Your task to perform on an android device: install app "eBay: The shopping marketplace" Image 0: 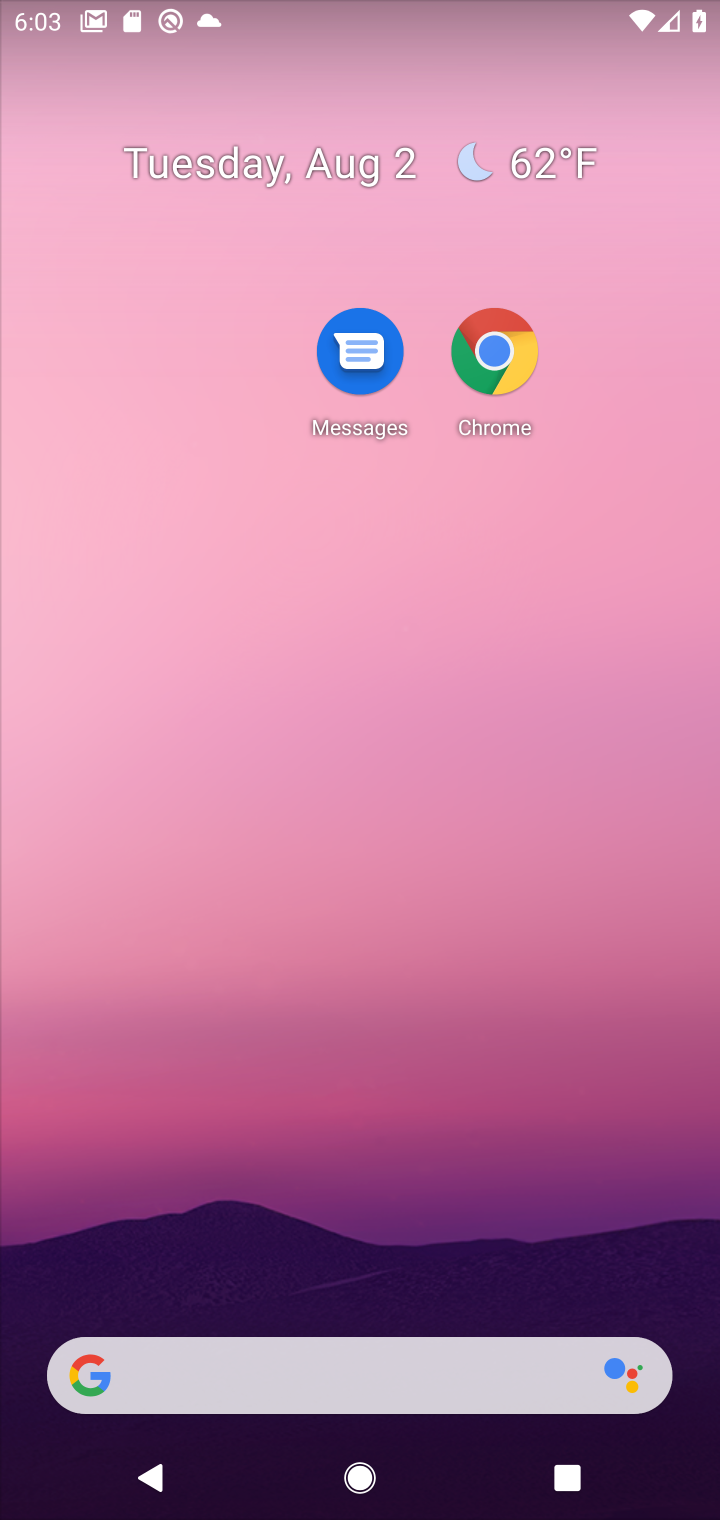
Step 0: drag from (305, 1216) to (504, 48)
Your task to perform on an android device: install app "eBay: The shopping marketplace" Image 1: 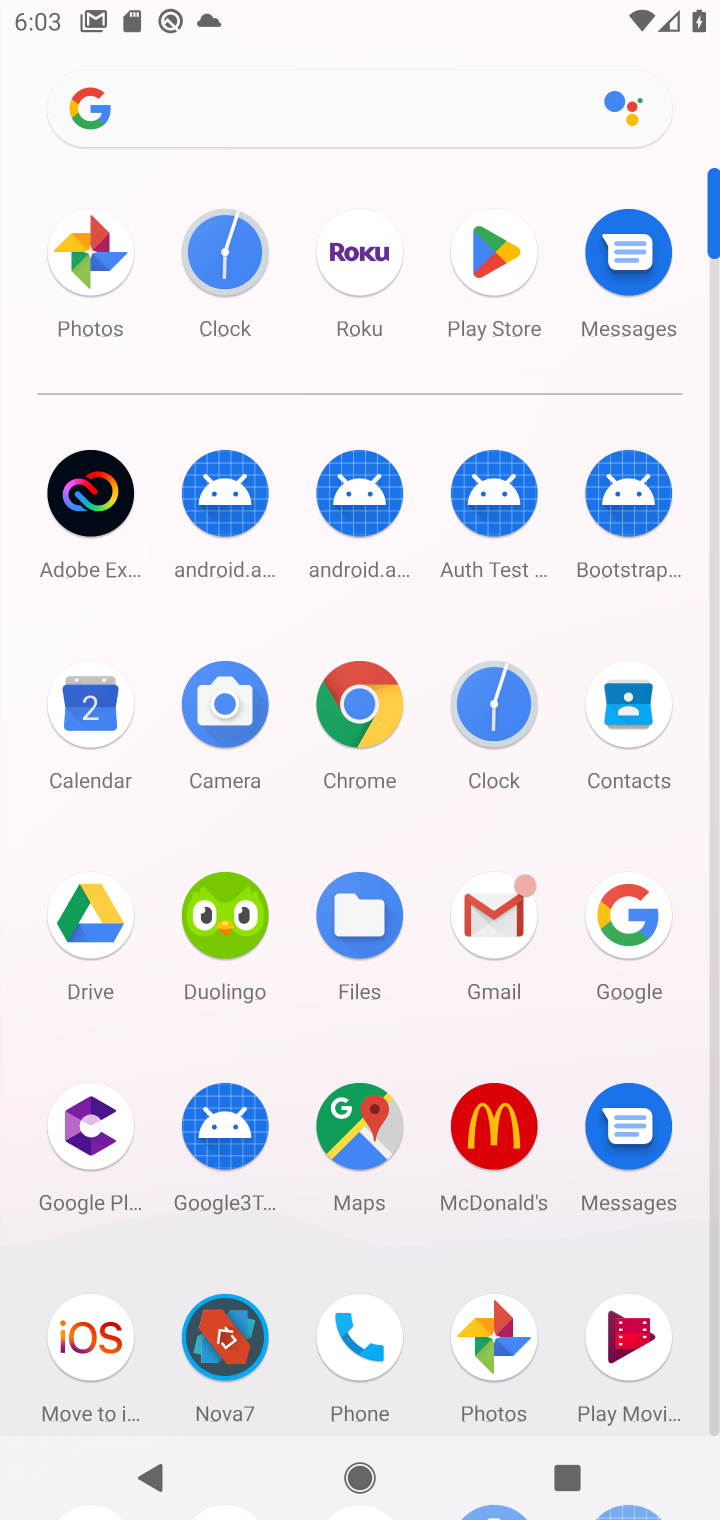
Step 1: click (497, 228)
Your task to perform on an android device: install app "eBay: The shopping marketplace" Image 2: 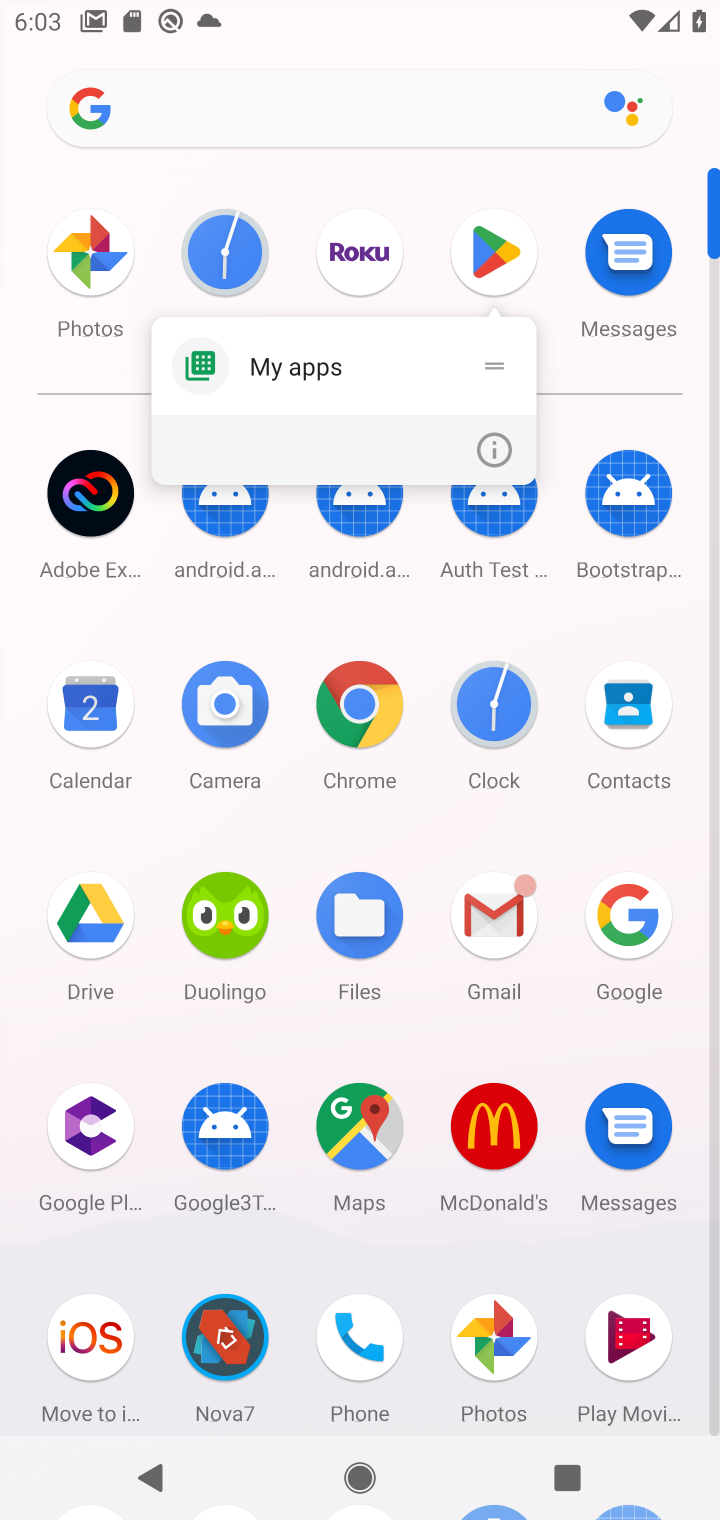
Step 2: click (494, 442)
Your task to perform on an android device: install app "eBay: The shopping marketplace" Image 3: 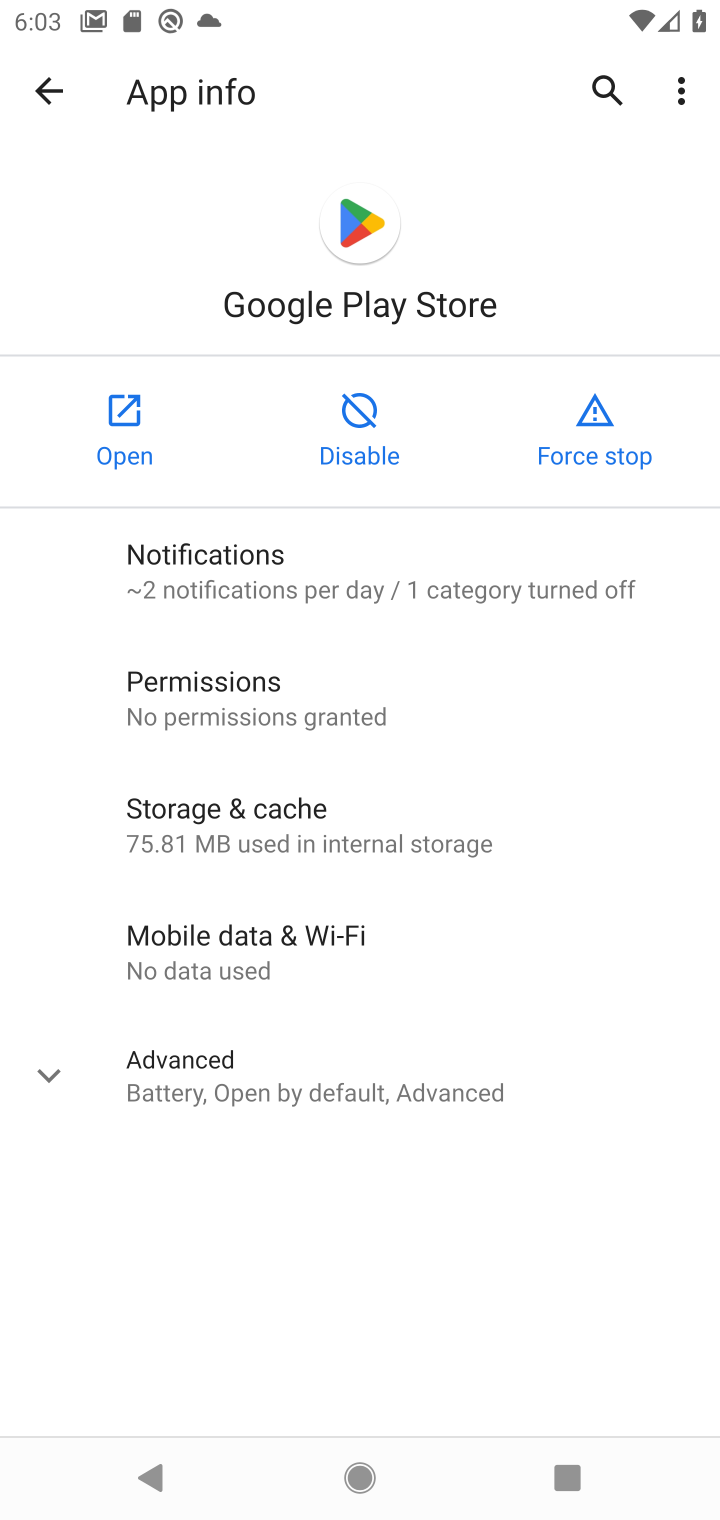
Step 3: click (122, 421)
Your task to perform on an android device: install app "eBay: The shopping marketplace" Image 4: 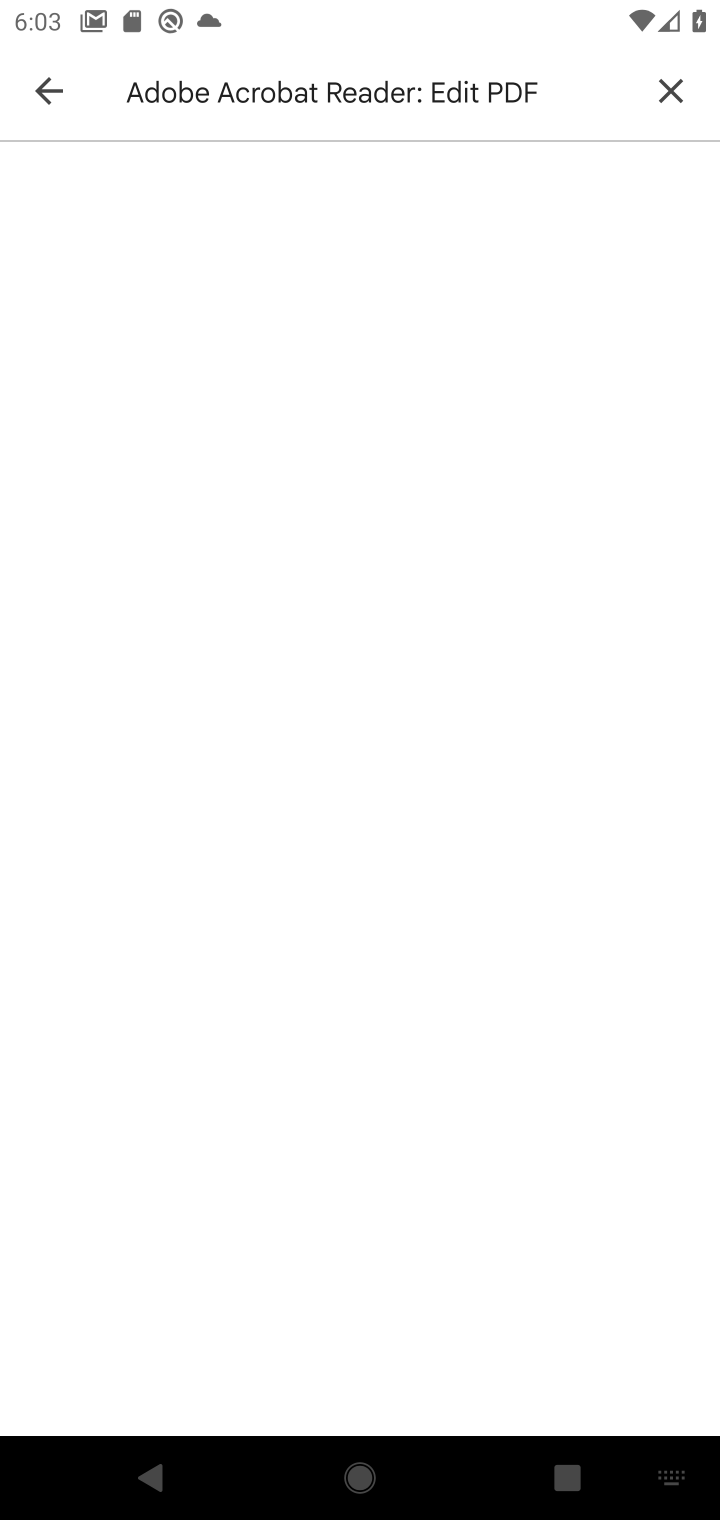
Step 4: click (691, 93)
Your task to perform on an android device: install app "eBay: The shopping marketplace" Image 5: 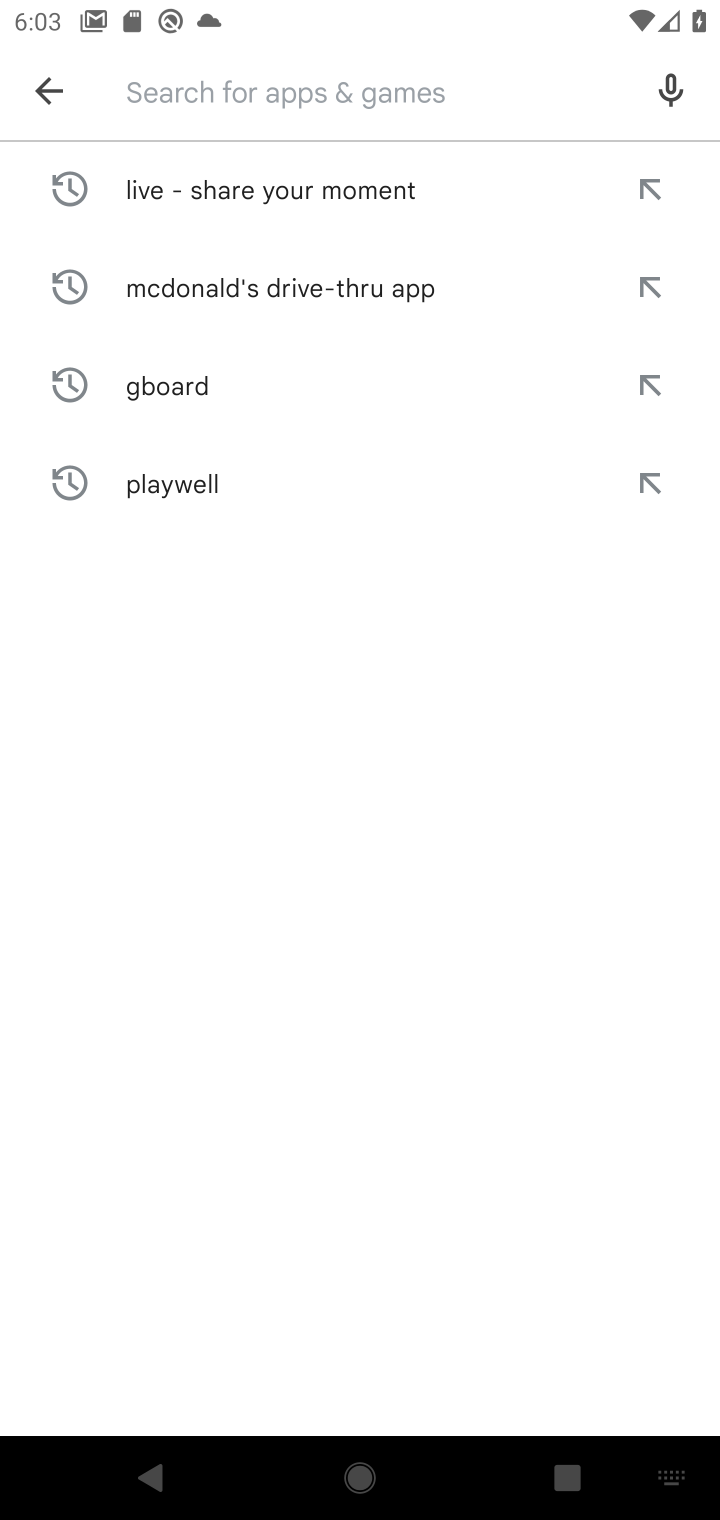
Step 5: click (45, 81)
Your task to perform on an android device: install app "eBay: The shopping marketplace" Image 6: 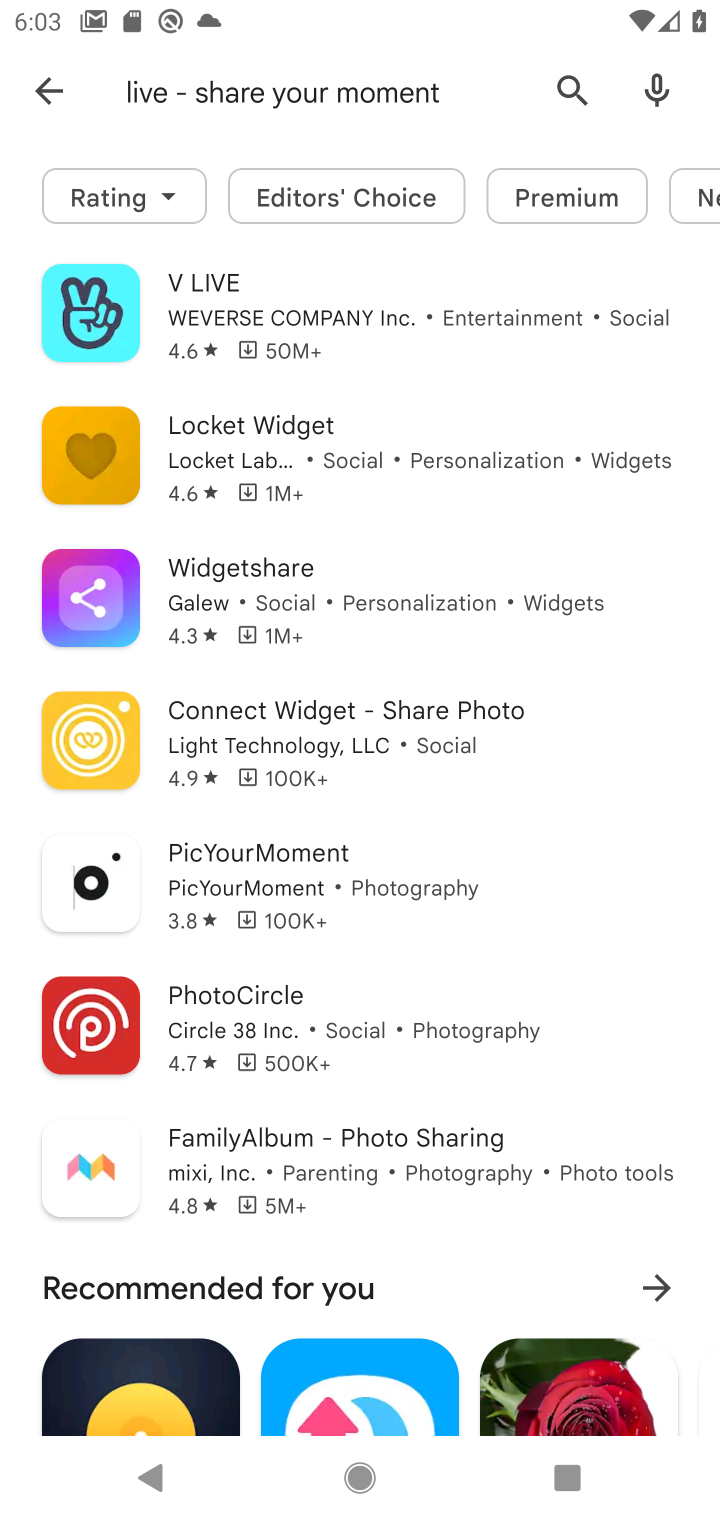
Step 6: drag from (301, 1021) to (543, 222)
Your task to perform on an android device: install app "eBay: The shopping marketplace" Image 7: 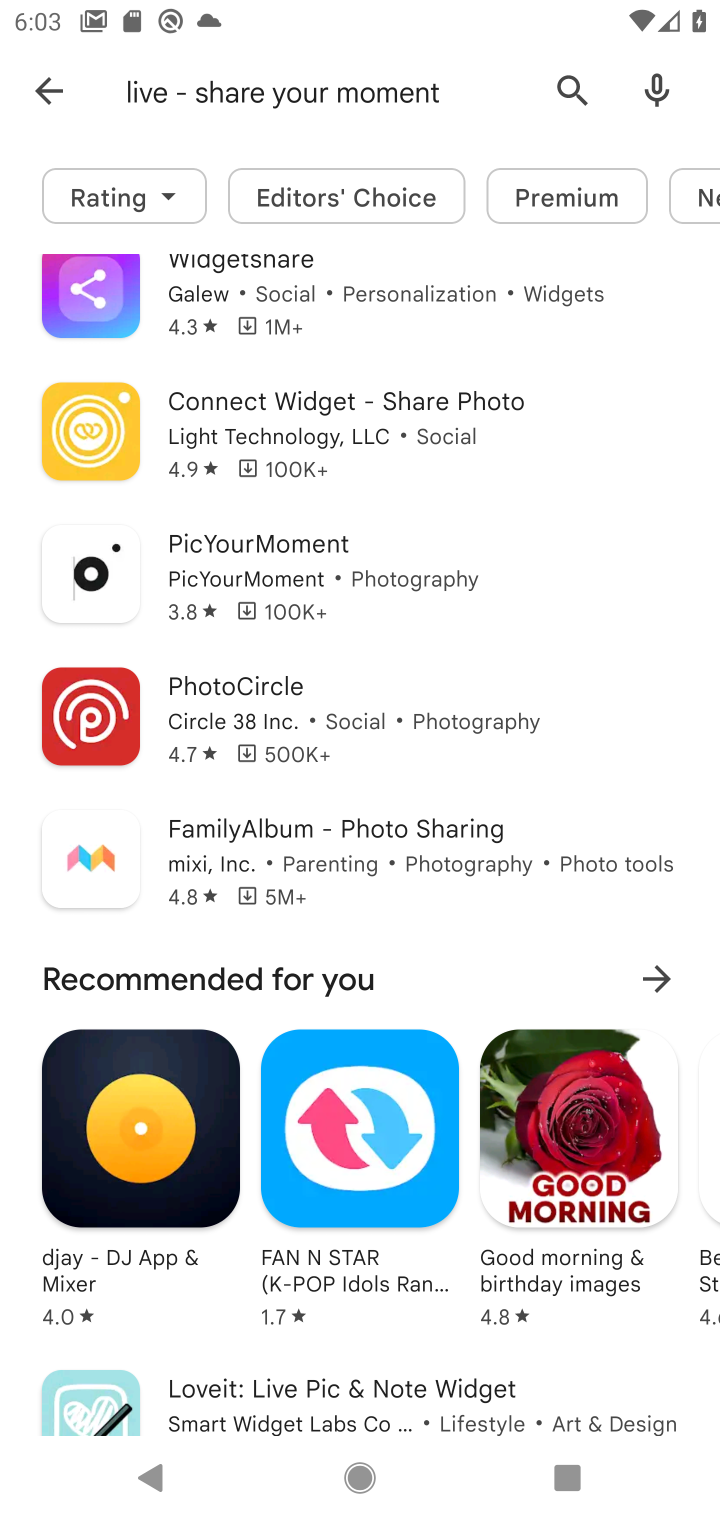
Step 7: drag from (248, 965) to (569, 1503)
Your task to perform on an android device: install app "eBay: The shopping marketplace" Image 8: 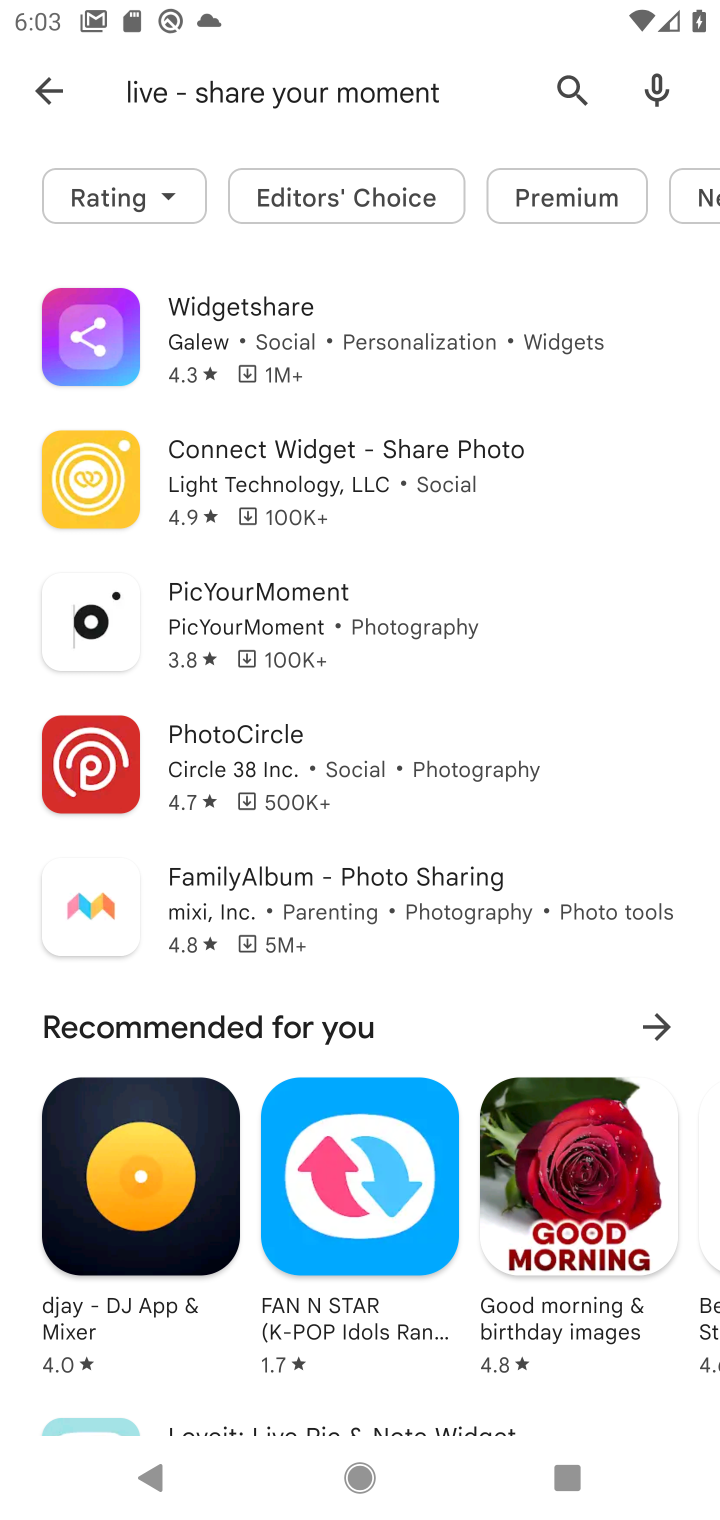
Step 8: click (574, 95)
Your task to perform on an android device: install app "eBay: The shopping marketplace" Image 9: 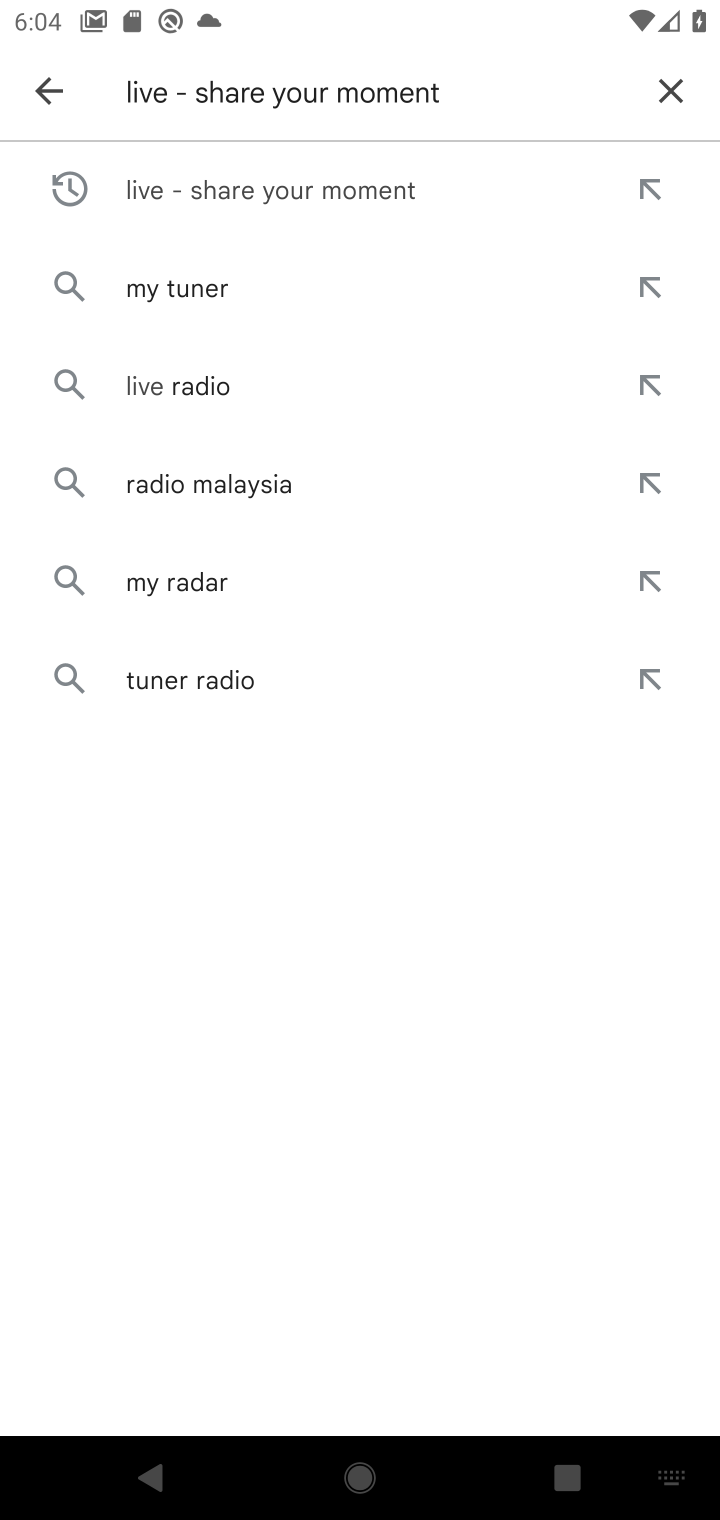
Step 9: click (660, 94)
Your task to perform on an android device: install app "eBay: The shopping marketplace" Image 10: 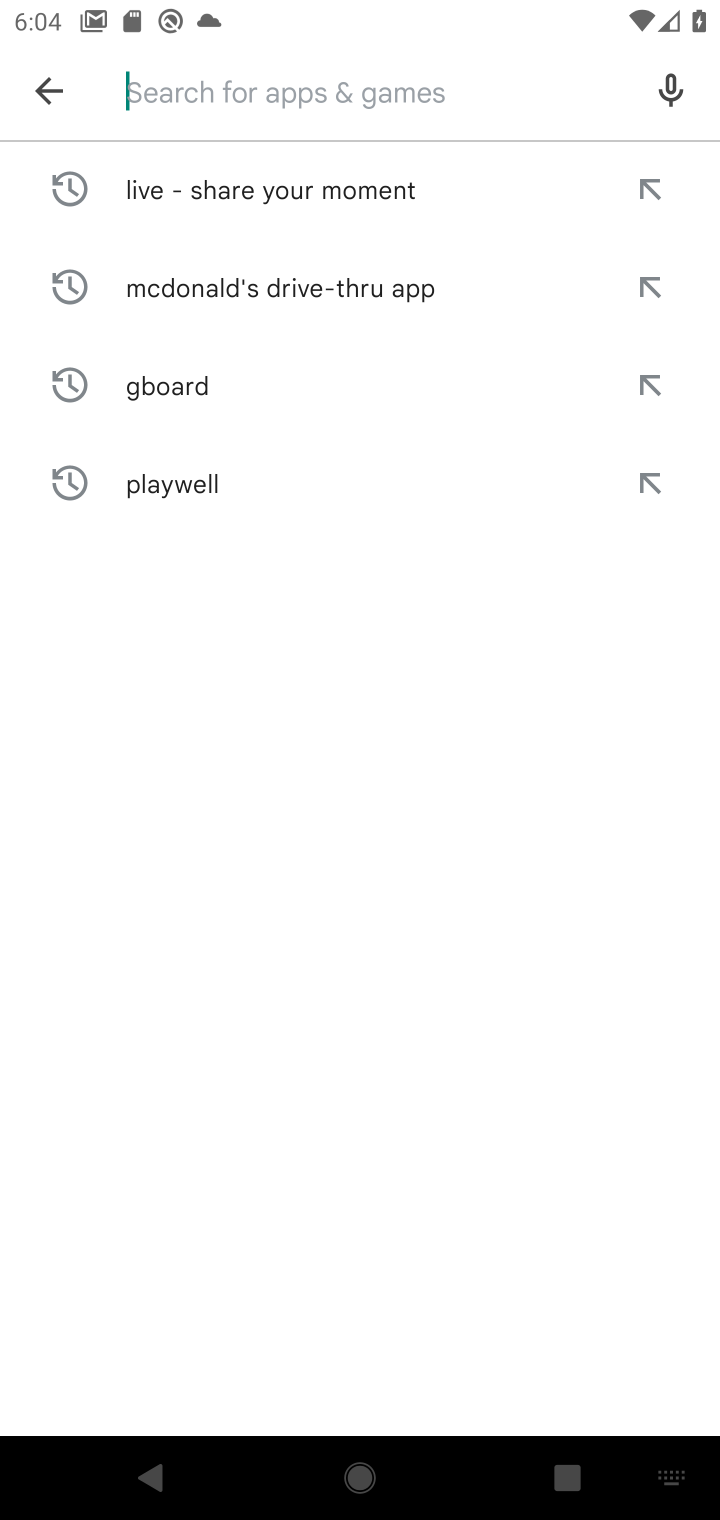
Step 10: type "eBay: The shopping marketplace"
Your task to perform on an android device: install app "eBay: The shopping marketplace" Image 11: 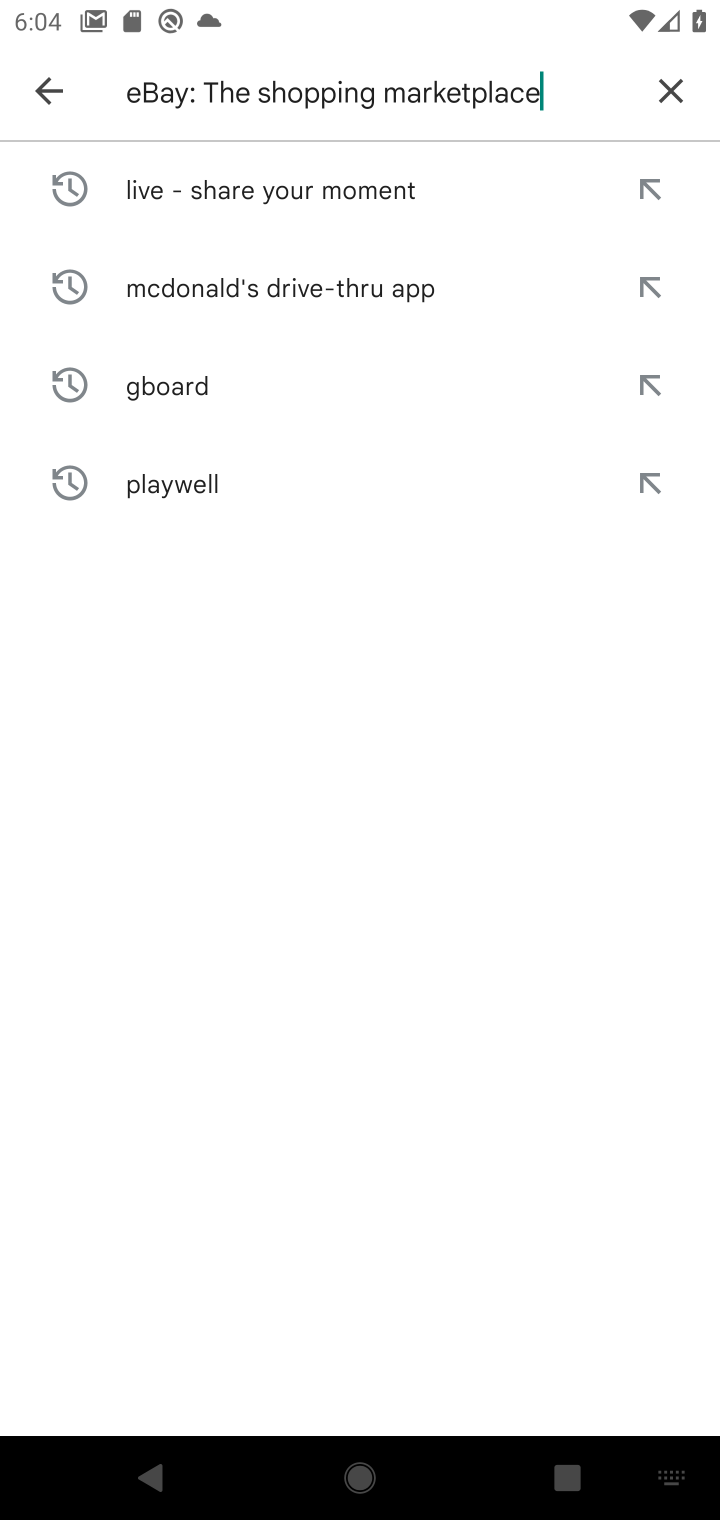
Step 11: type ""
Your task to perform on an android device: install app "eBay: The shopping marketplace" Image 12: 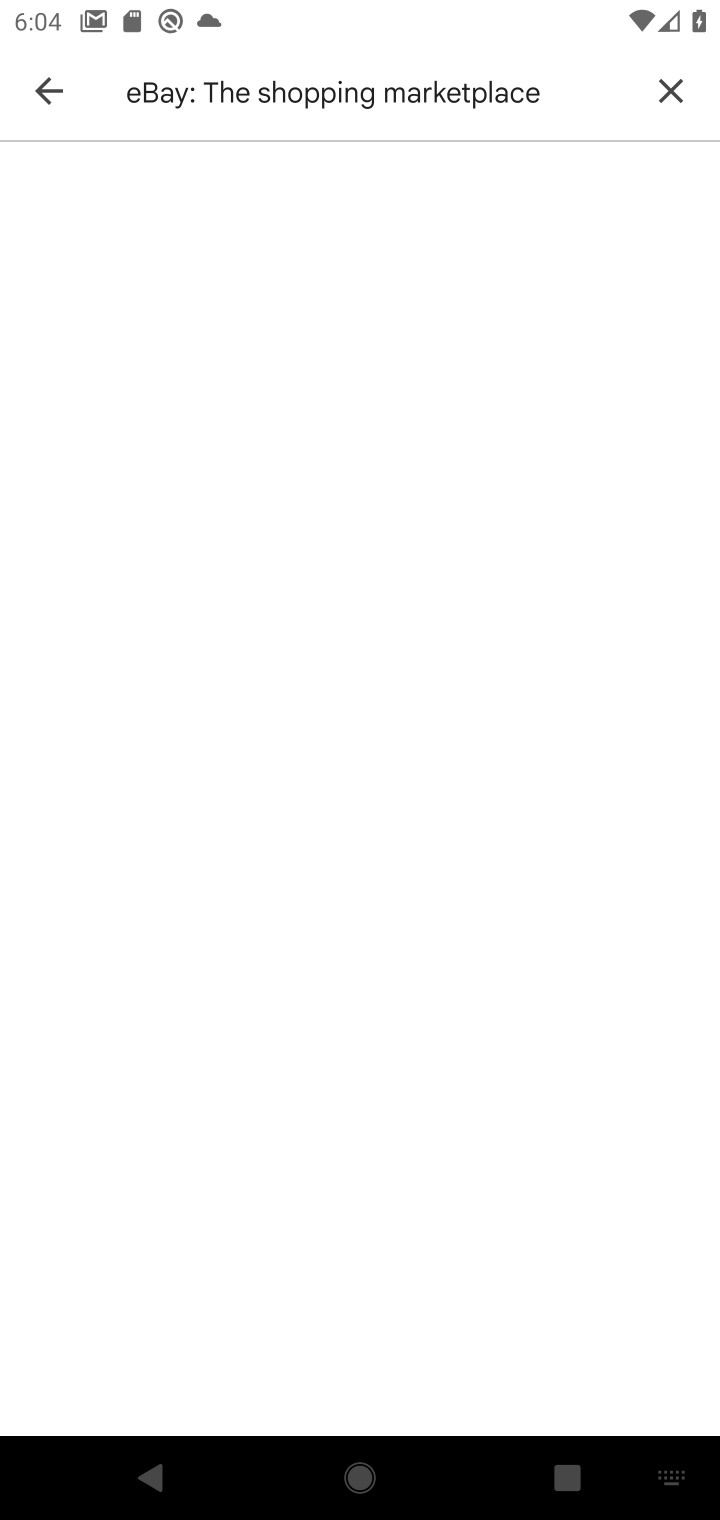
Step 12: drag from (271, 208) to (297, 807)
Your task to perform on an android device: install app "eBay: The shopping marketplace" Image 13: 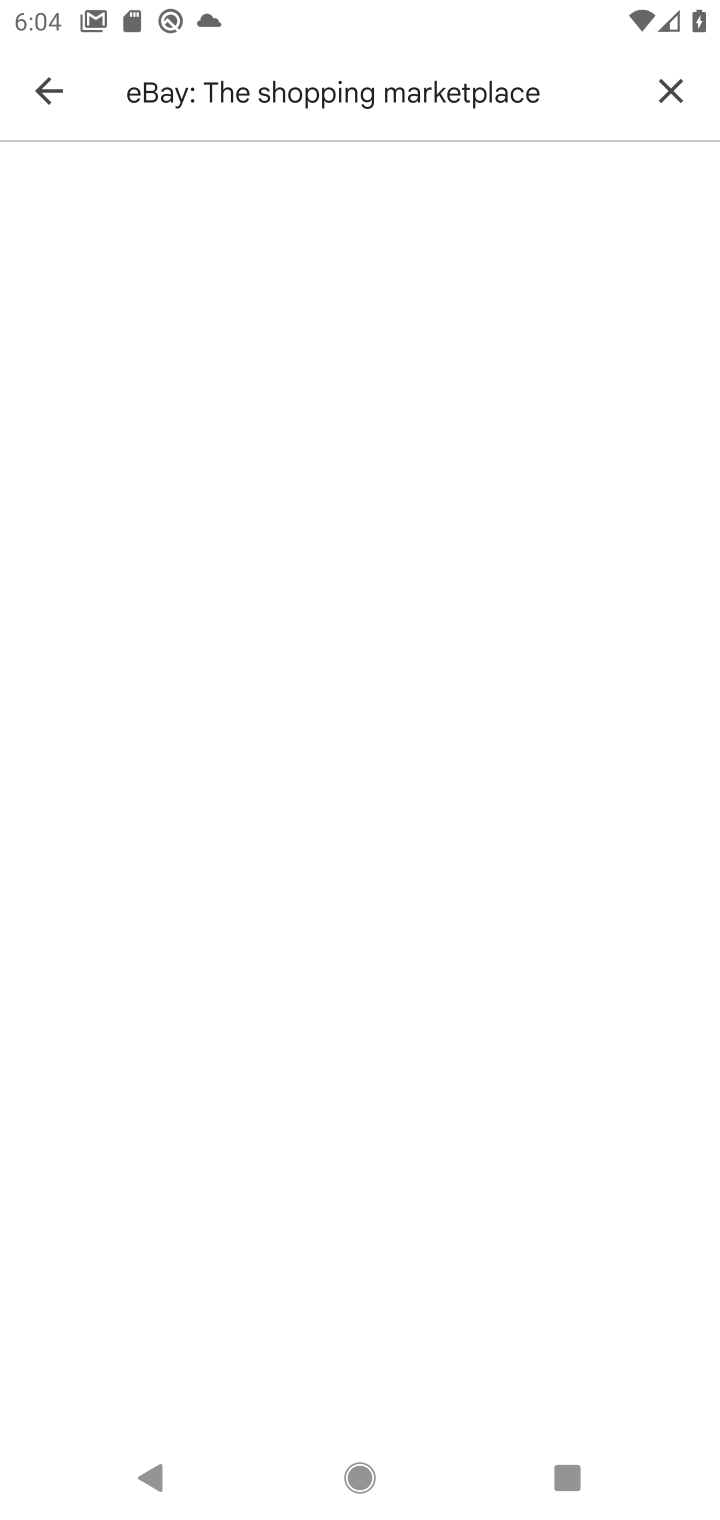
Step 13: click (363, 189)
Your task to perform on an android device: install app "eBay: The shopping marketplace" Image 14: 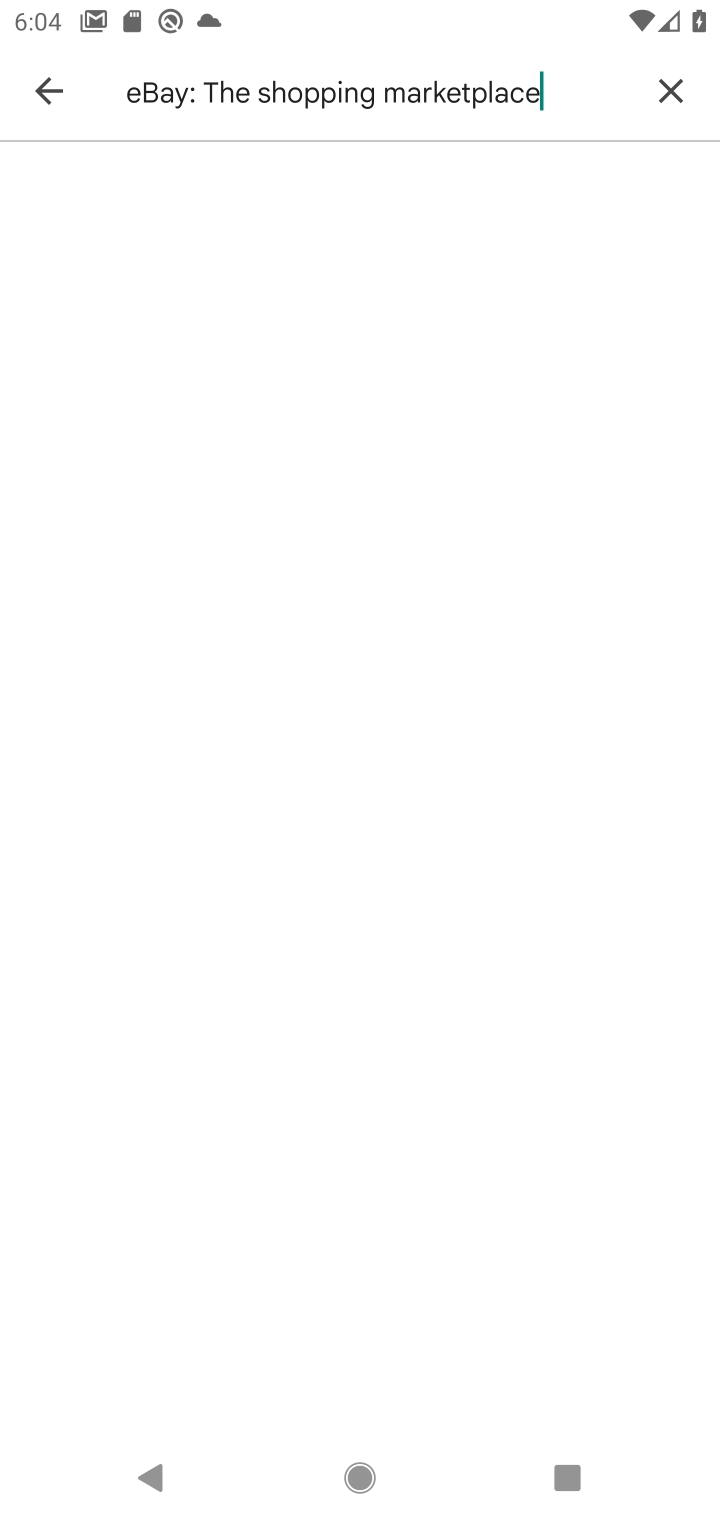
Step 14: click (272, 184)
Your task to perform on an android device: install app "eBay: The shopping marketplace" Image 15: 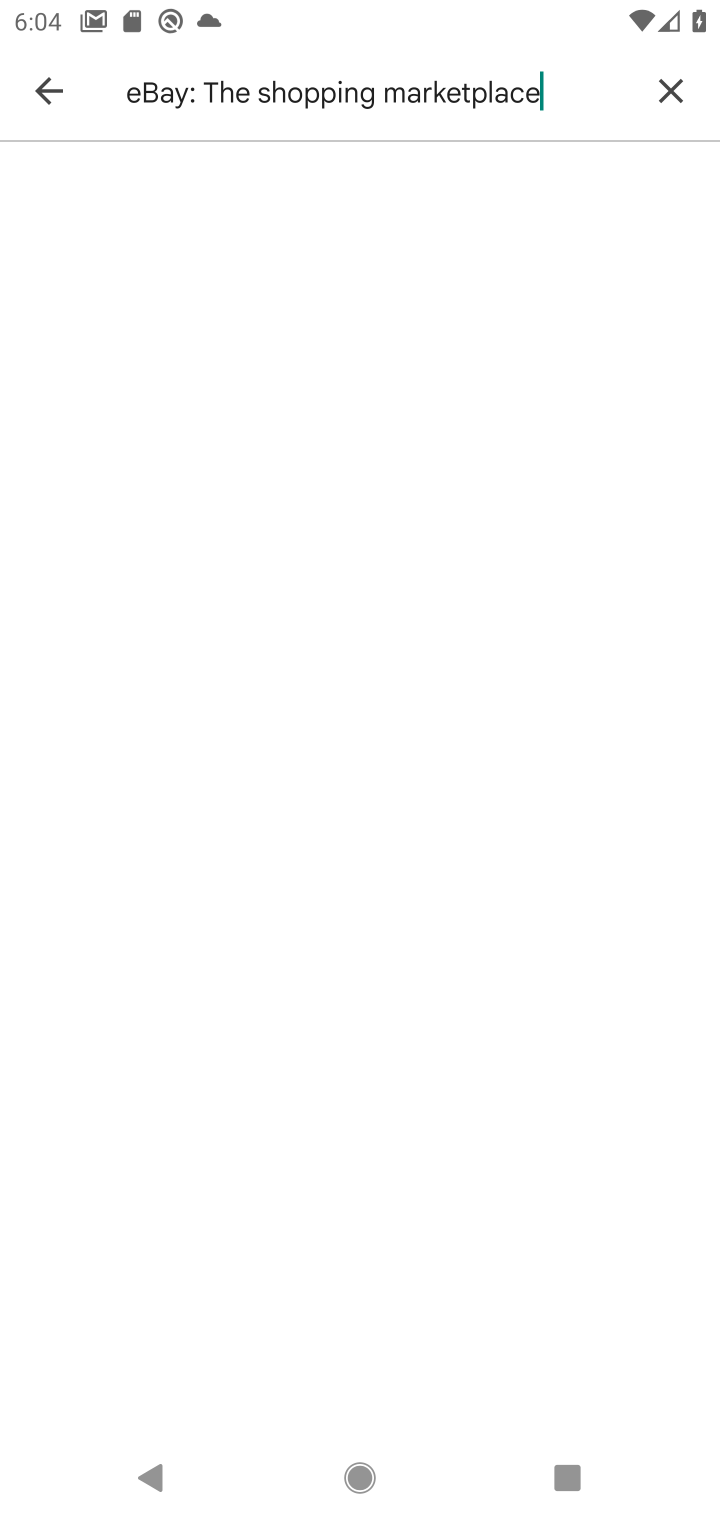
Step 15: press home button
Your task to perform on an android device: install app "eBay: The shopping marketplace" Image 16: 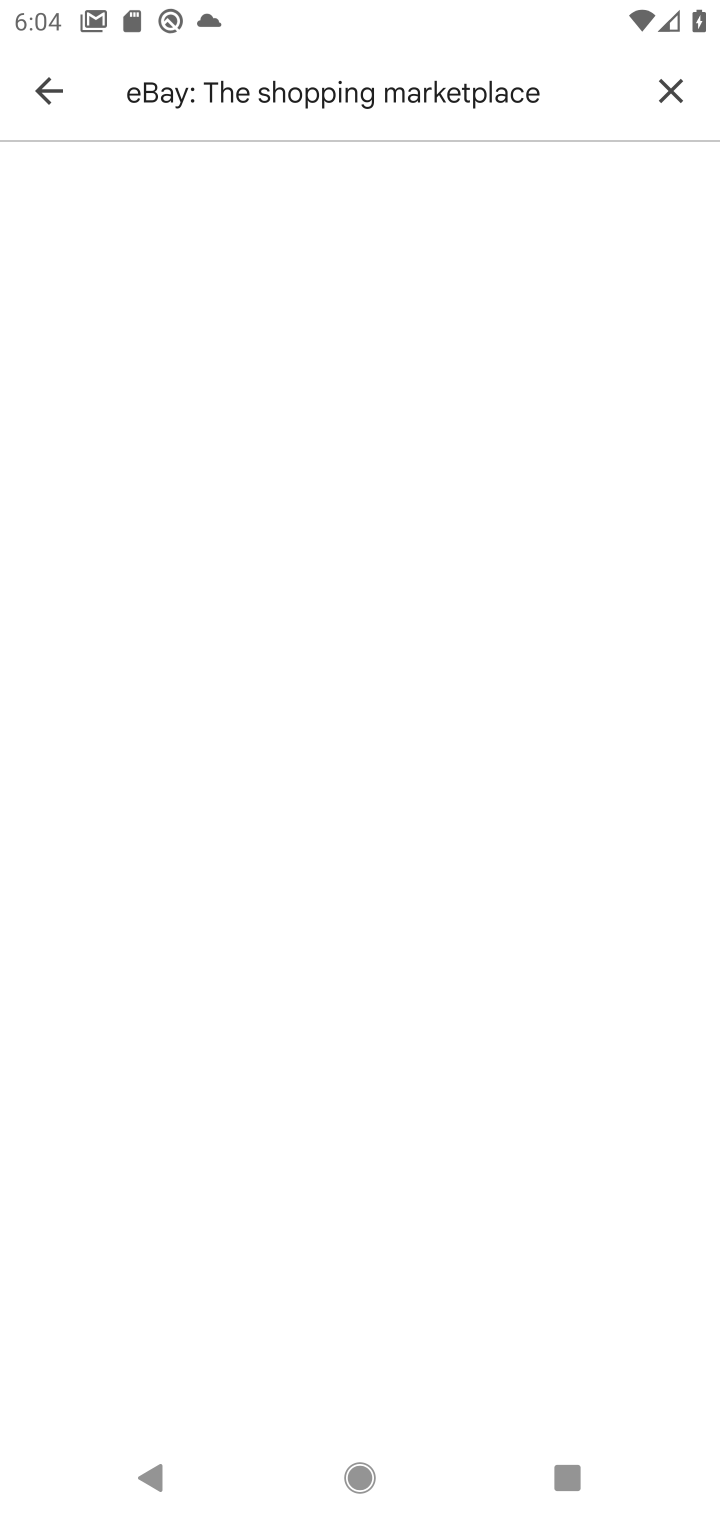
Step 16: press home button
Your task to perform on an android device: install app "eBay: The shopping marketplace" Image 17: 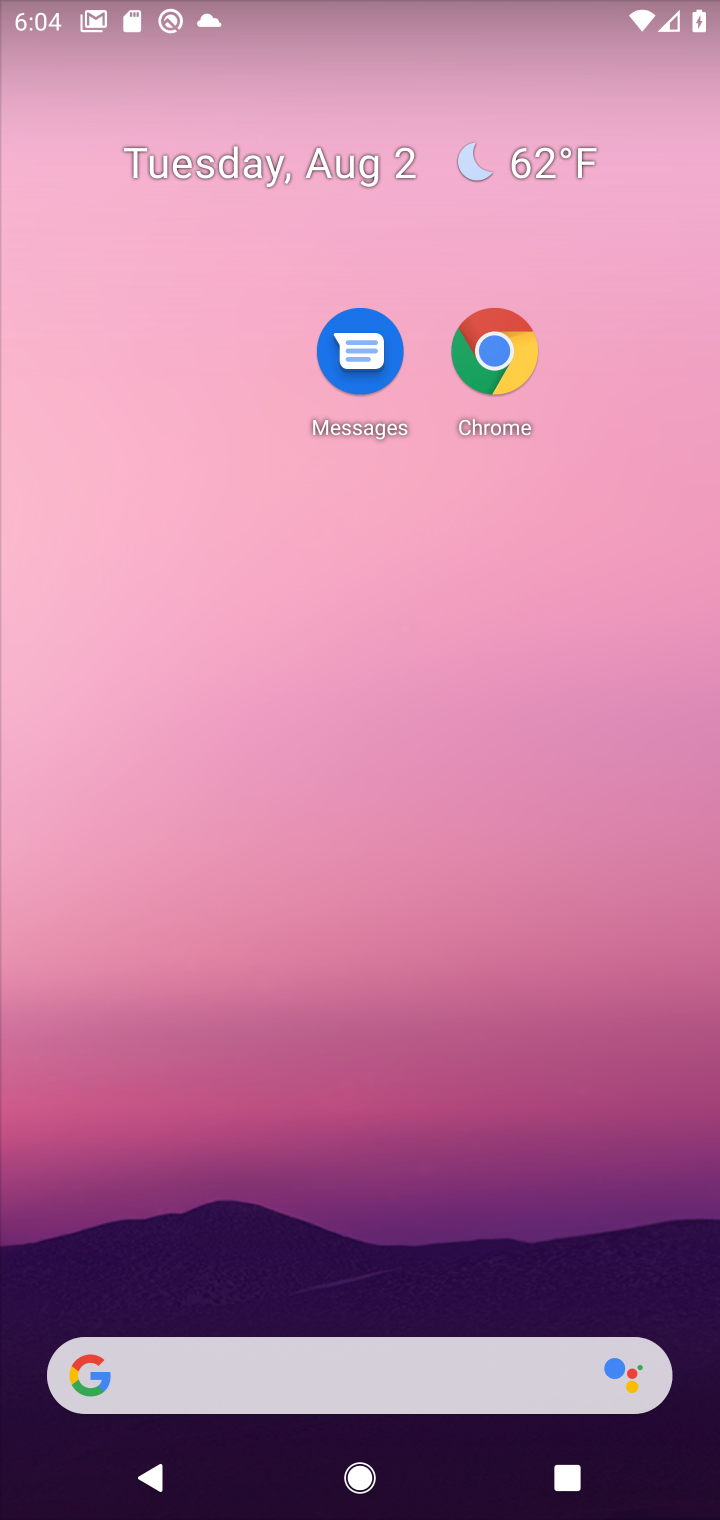
Step 17: press home button
Your task to perform on an android device: install app "eBay: The shopping marketplace" Image 18: 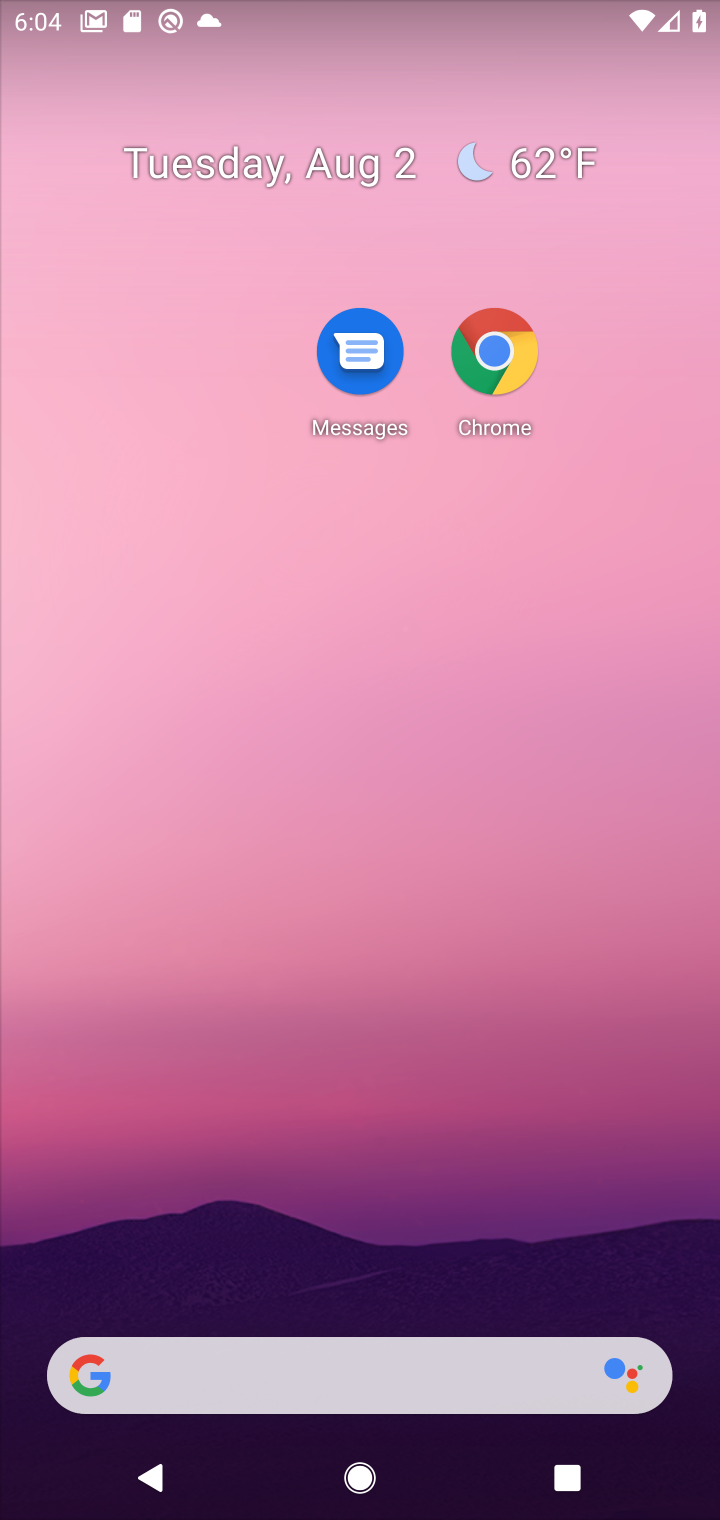
Step 18: press home button
Your task to perform on an android device: install app "eBay: The shopping marketplace" Image 19: 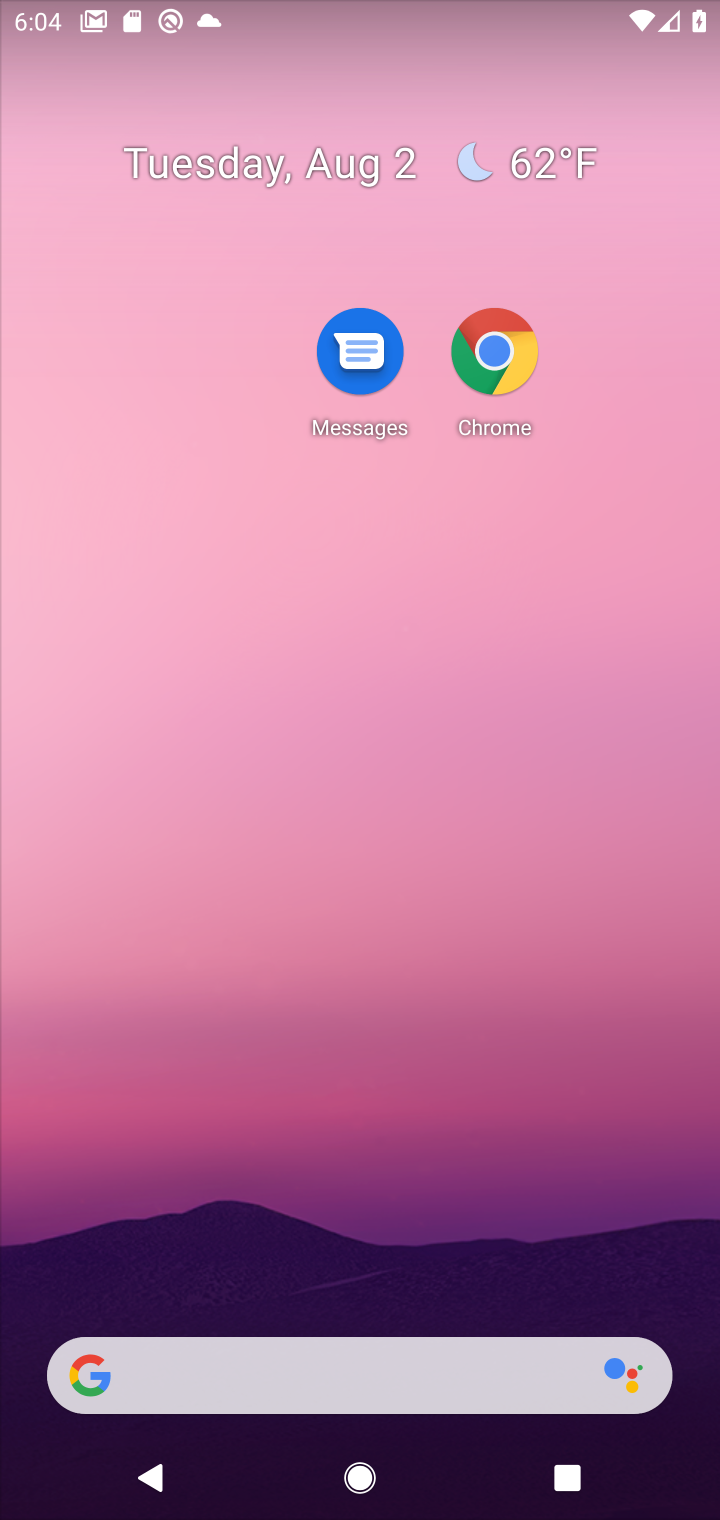
Step 19: drag from (397, 1135) to (497, 265)
Your task to perform on an android device: install app "eBay: The shopping marketplace" Image 20: 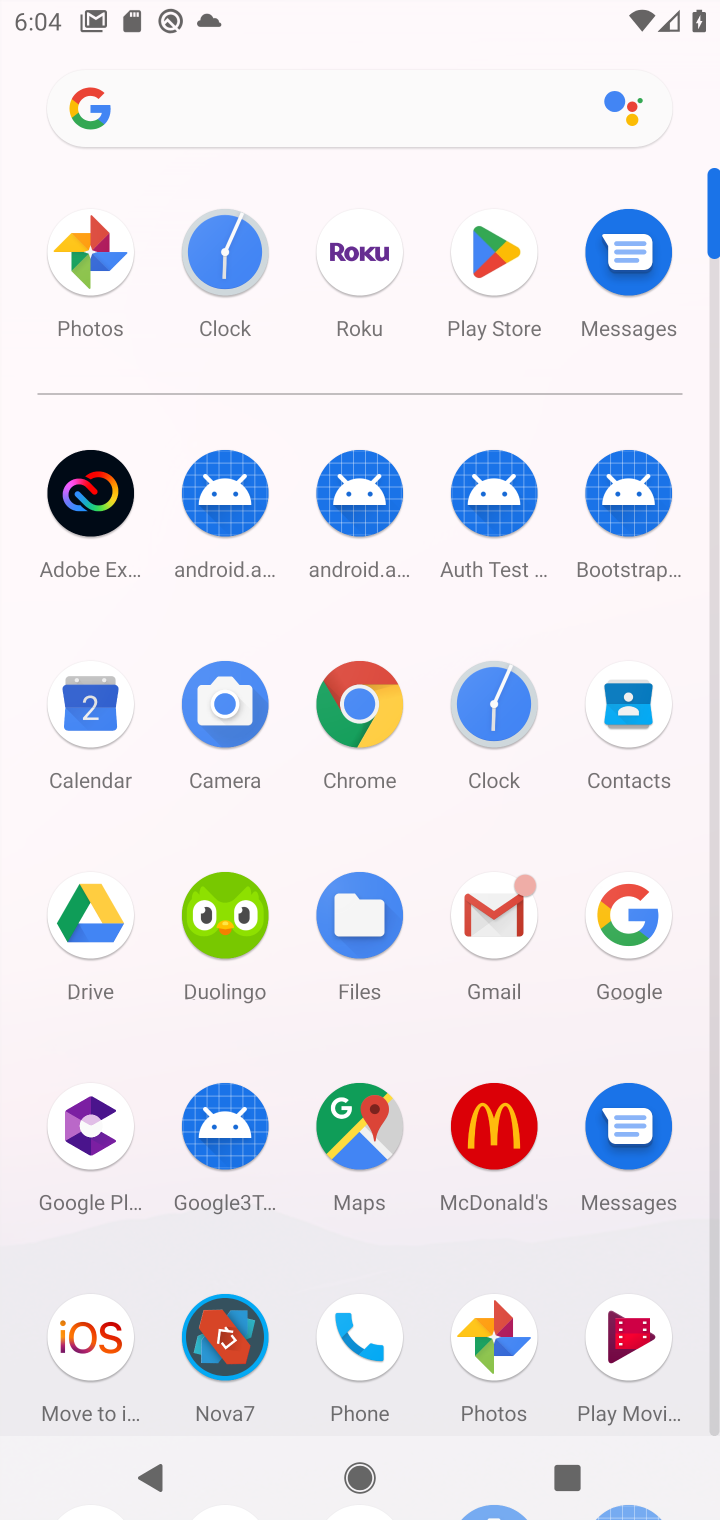
Step 20: click (523, 247)
Your task to perform on an android device: install app "eBay: The shopping marketplace" Image 21: 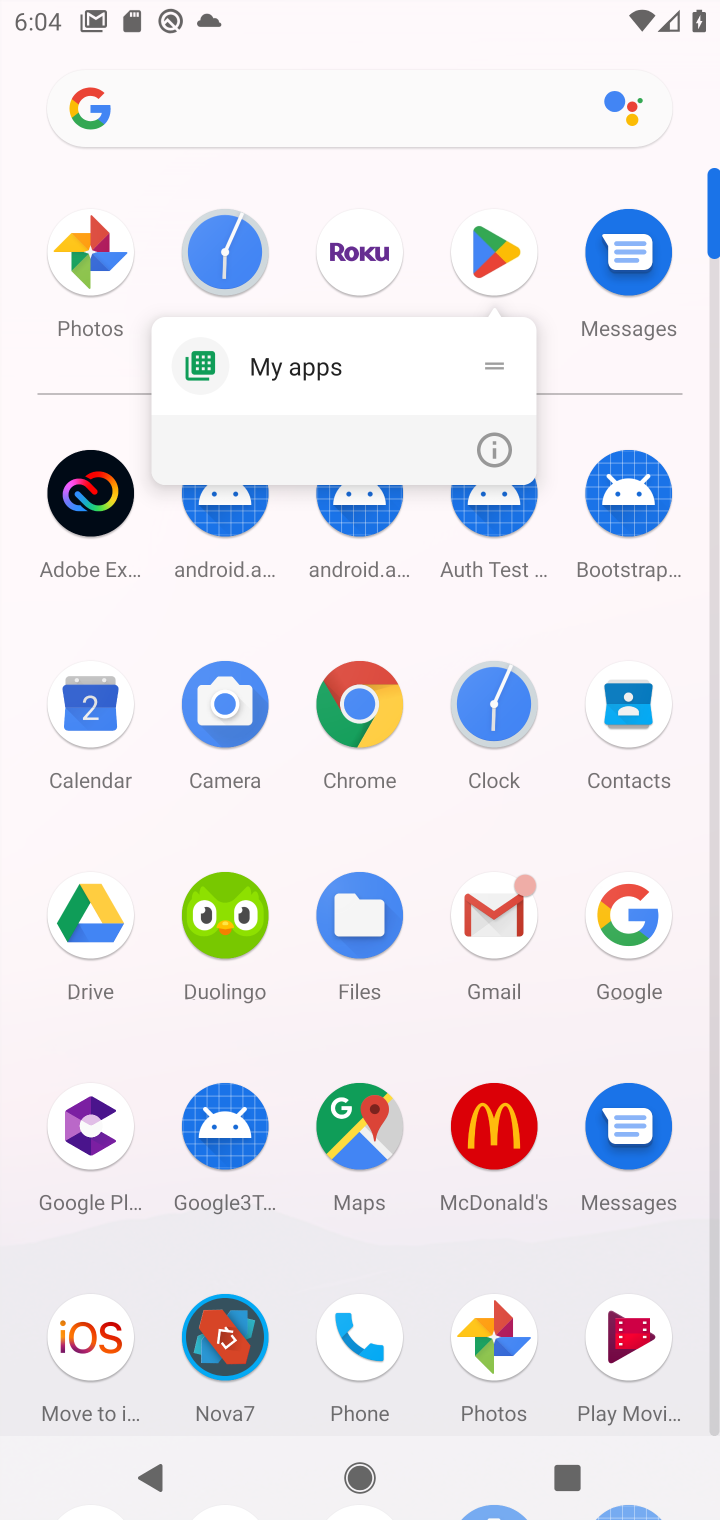
Step 21: click (501, 436)
Your task to perform on an android device: install app "eBay: The shopping marketplace" Image 22: 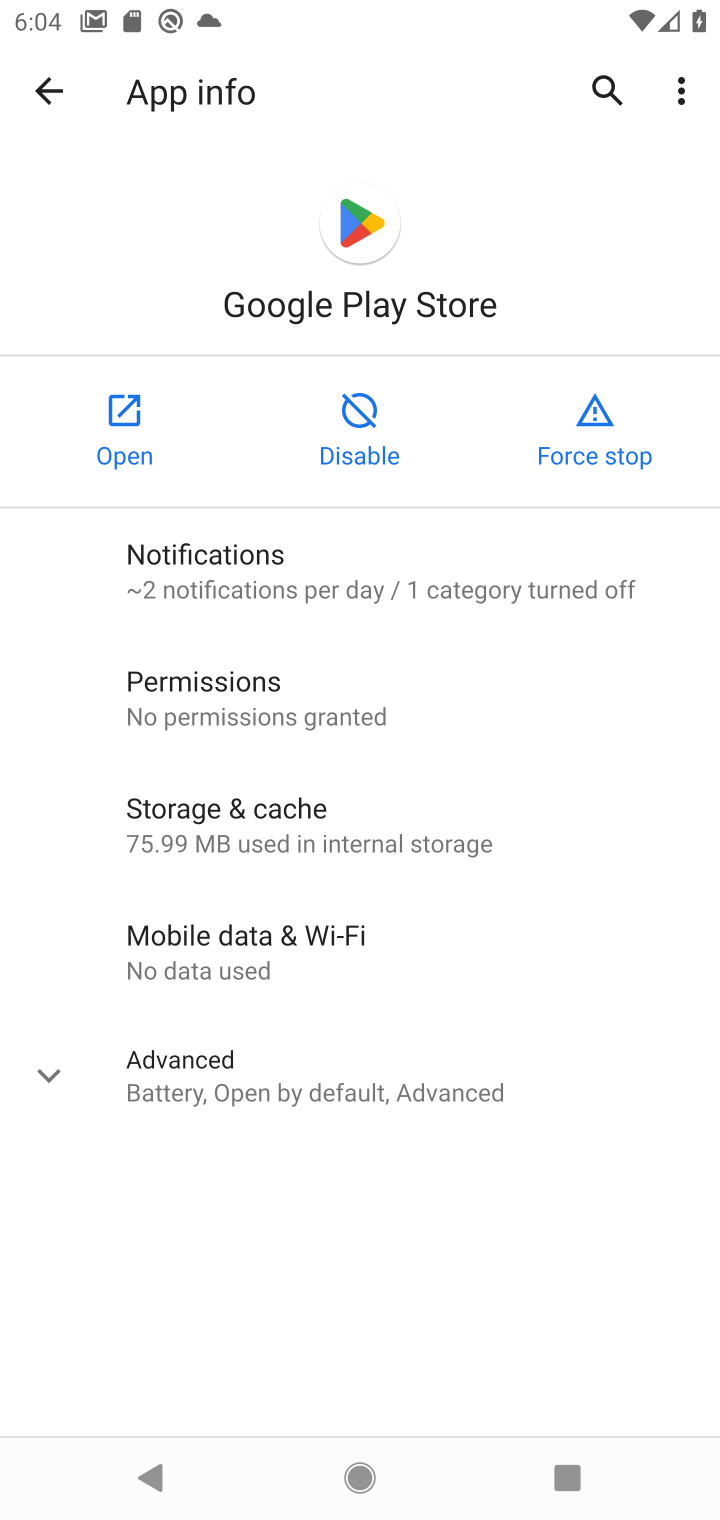
Step 22: click (134, 413)
Your task to perform on an android device: install app "eBay: The shopping marketplace" Image 23: 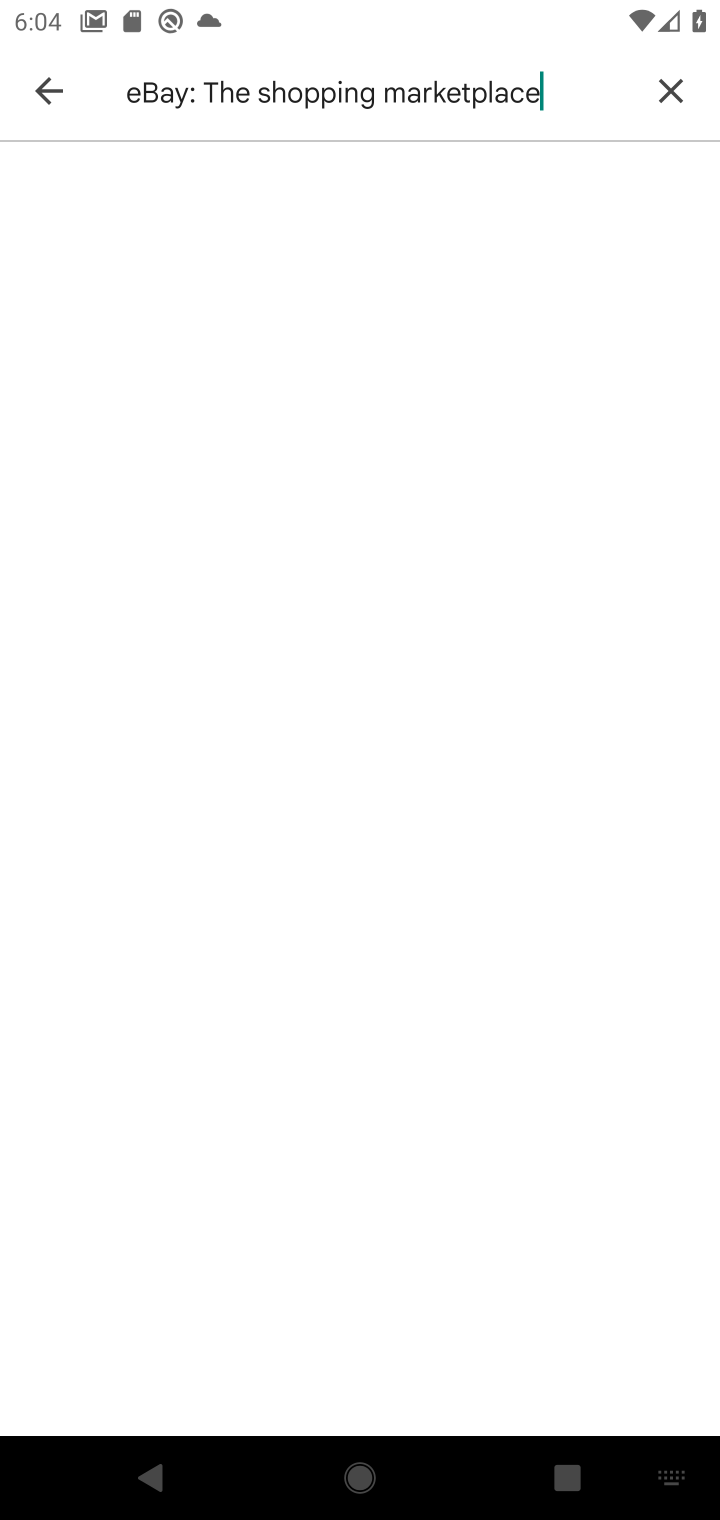
Step 23: click (686, 94)
Your task to perform on an android device: install app "eBay: The shopping marketplace" Image 24: 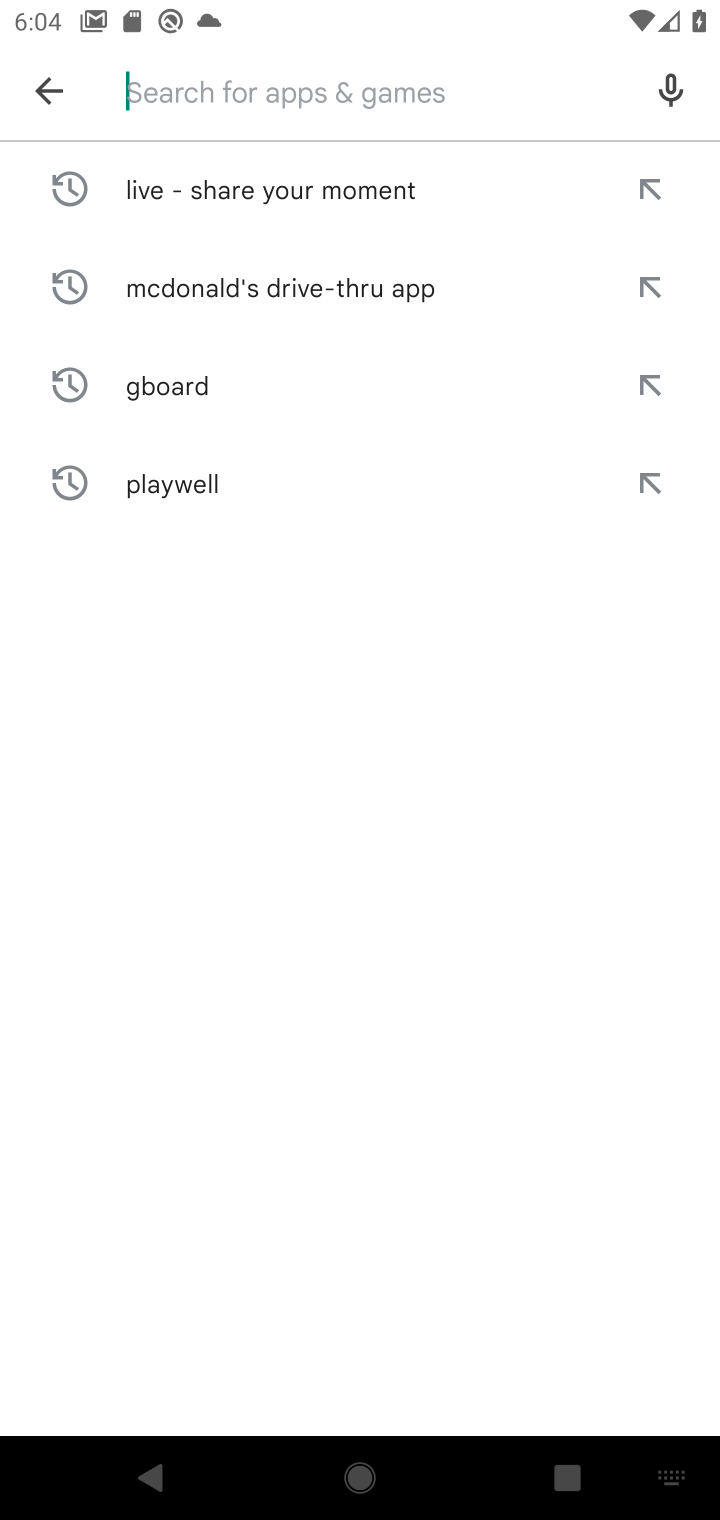
Step 24: type "eBay: The shopping marketplace"
Your task to perform on an android device: install app "eBay: The shopping marketplace" Image 25: 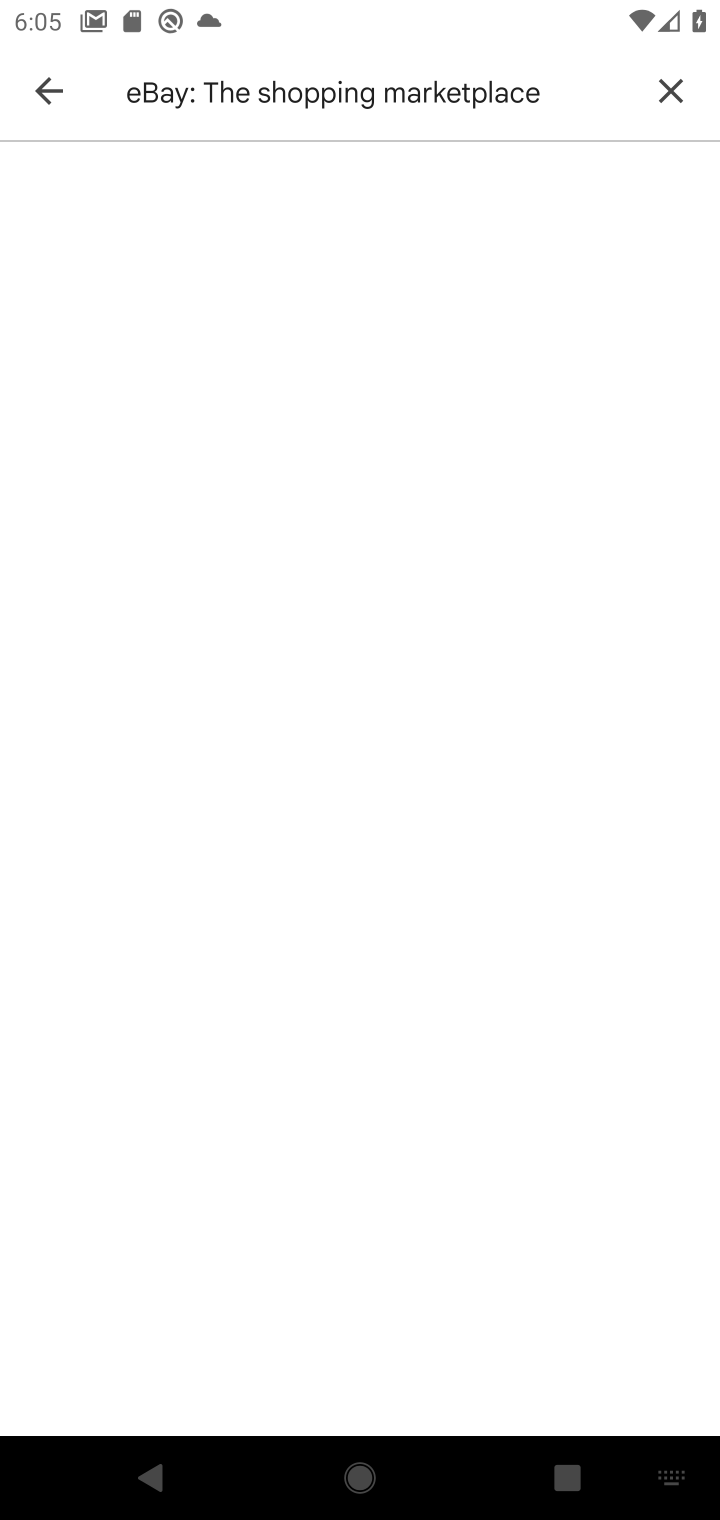
Step 25: click (352, 198)
Your task to perform on an android device: install app "eBay: The shopping marketplace" Image 26: 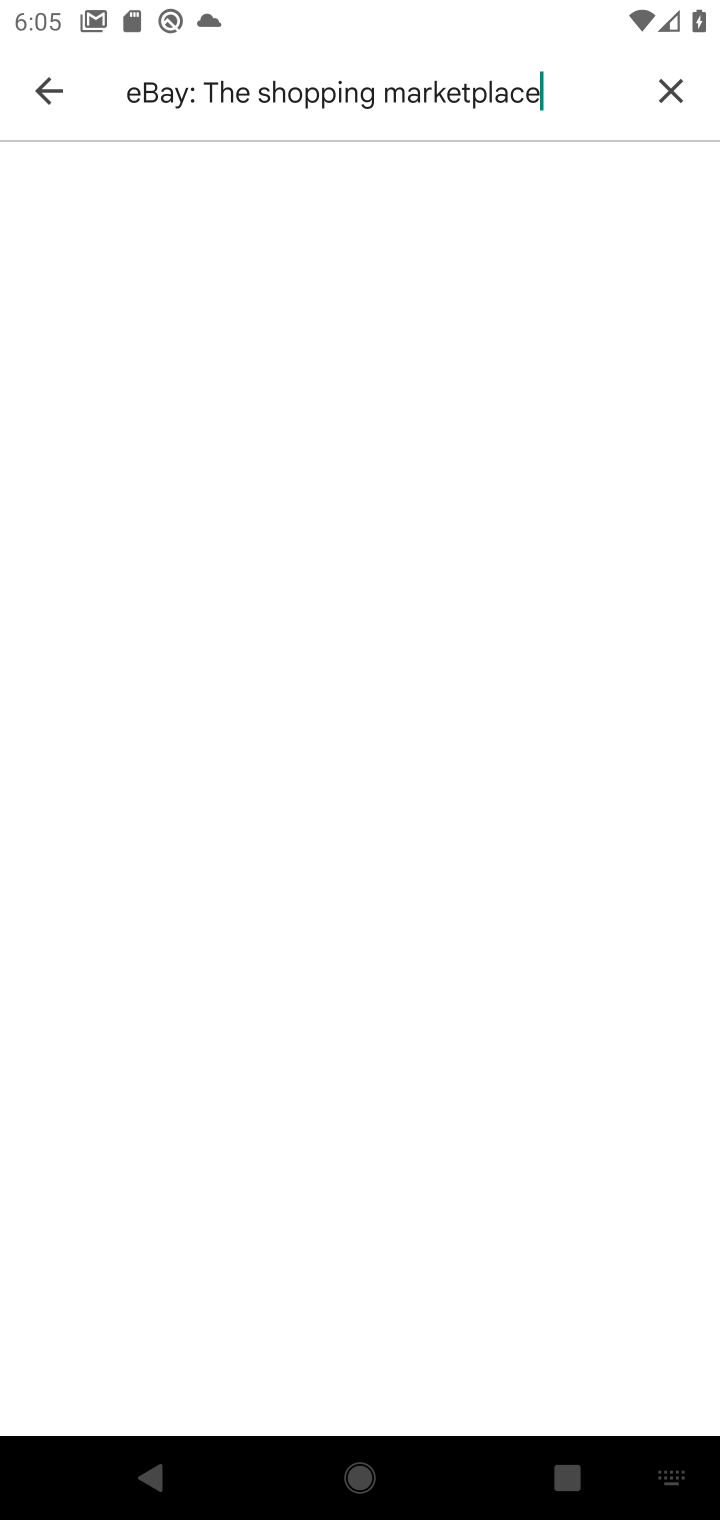
Step 26: drag from (246, 1028) to (359, 522)
Your task to perform on an android device: install app "eBay: The shopping marketplace" Image 27: 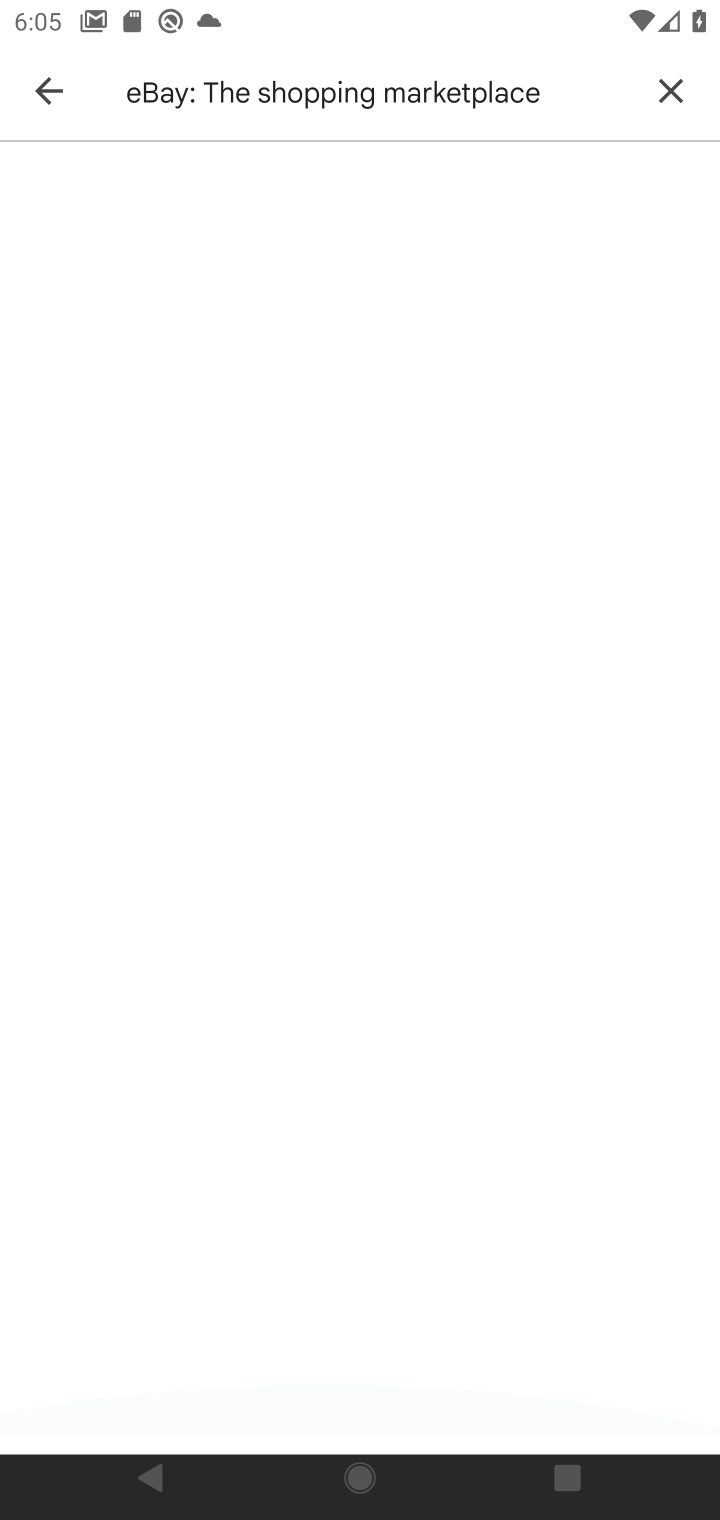
Step 27: drag from (407, 294) to (617, 960)
Your task to perform on an android device: install app "eBay: The shopping marketplace" Image 28: 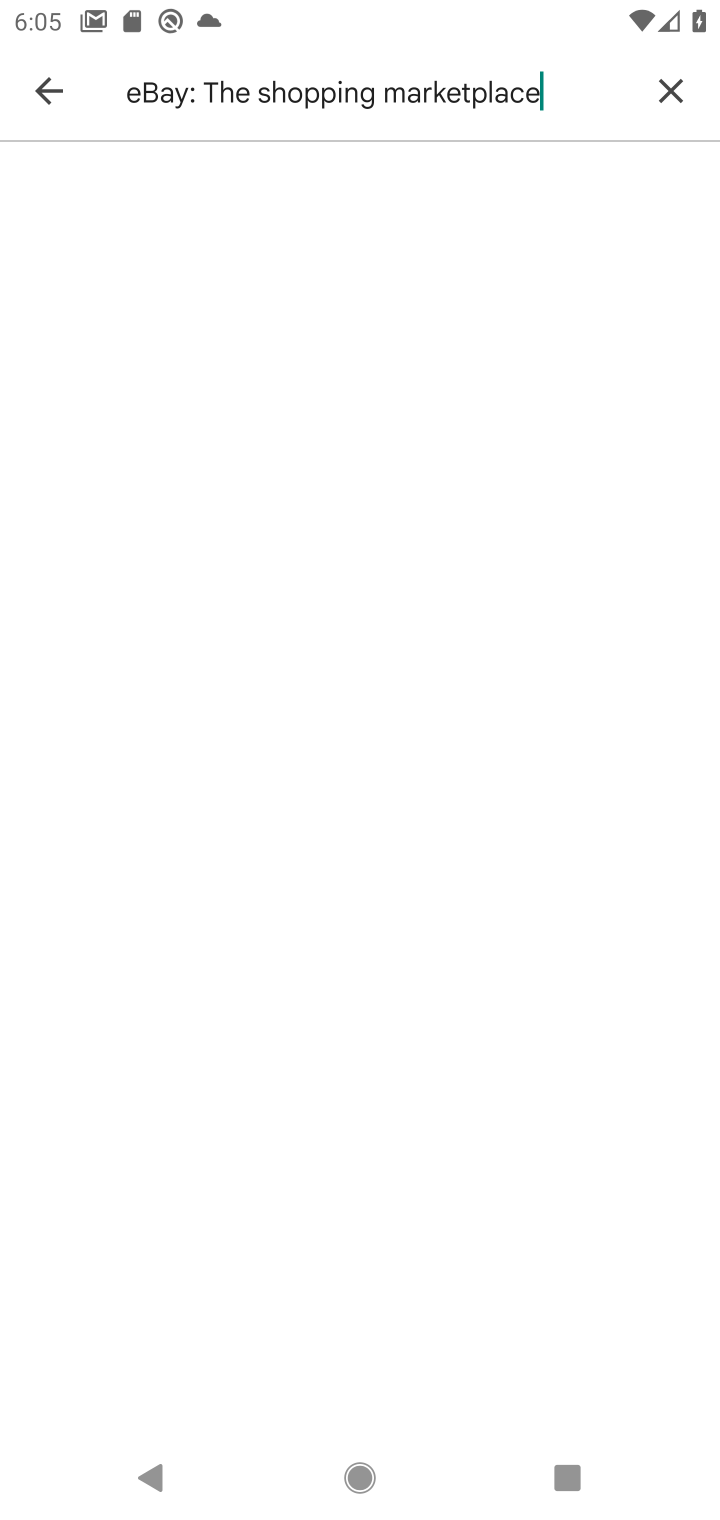
Step 28: click (346, 177)
Your task to perform on an android device: install app "eBay: The shopping marketplace" Image 29: 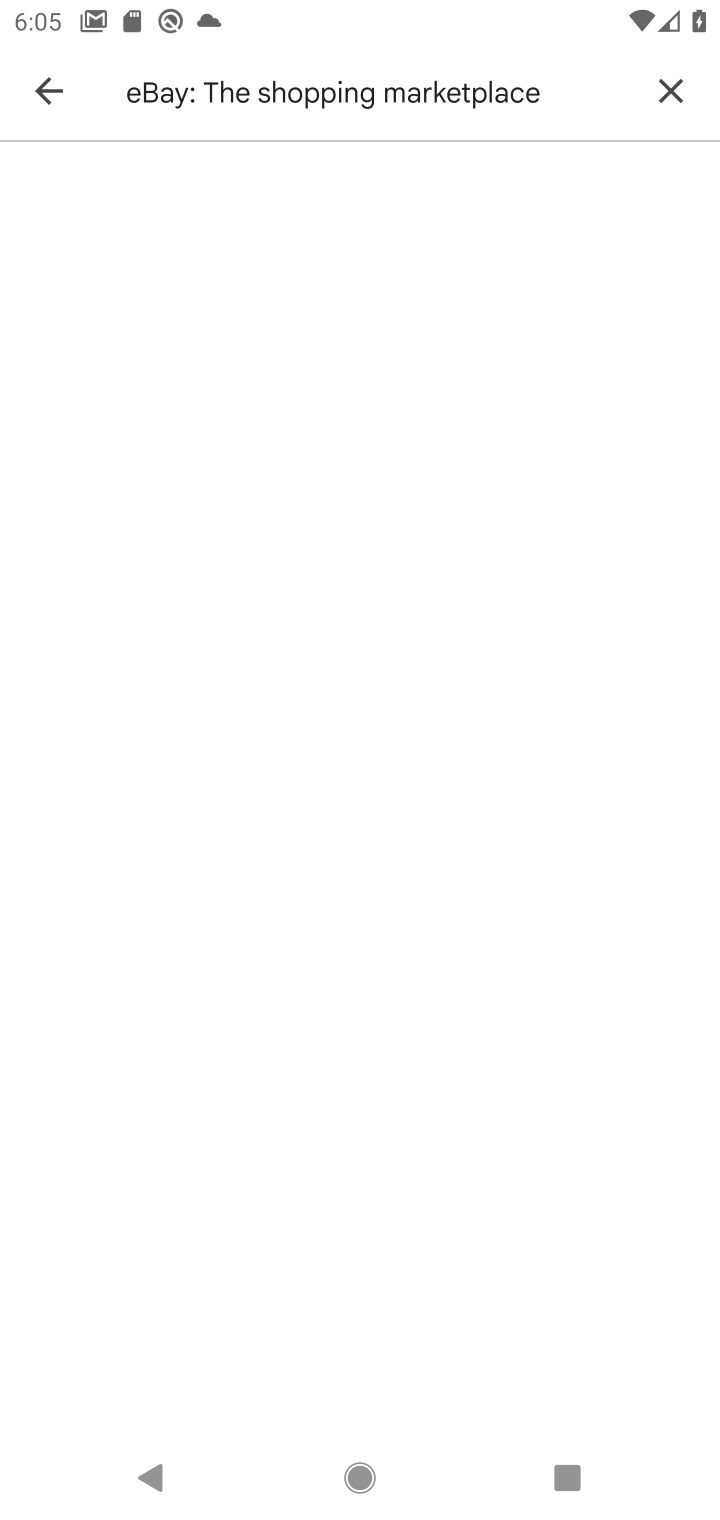
Step 29: click (424, 208)
Your task to perform on an android device: install app "eBay: The shopping marketplace" Image 30: 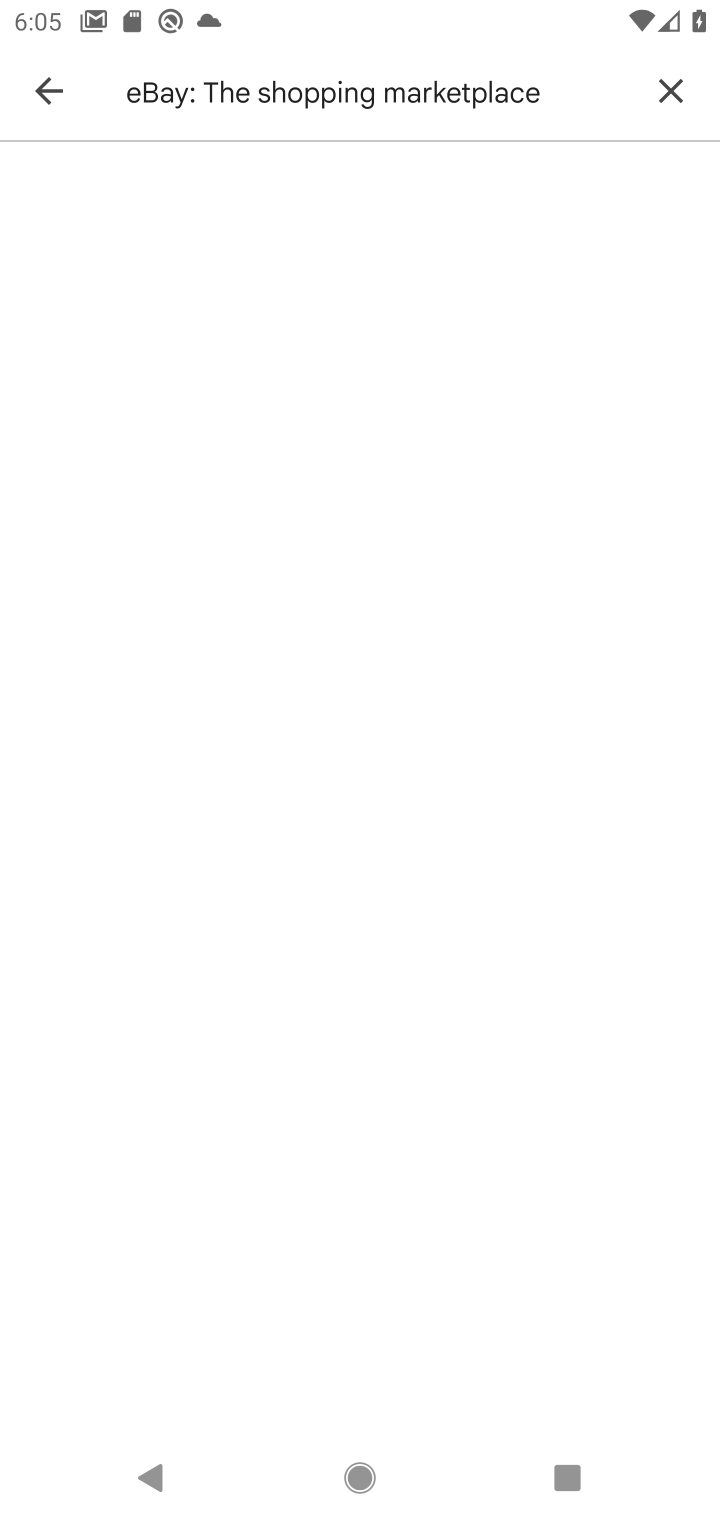
Step 30: click (588, 168)
Your task to perform on an android device: install app "eBay: The shopping marketplace" Image 31: 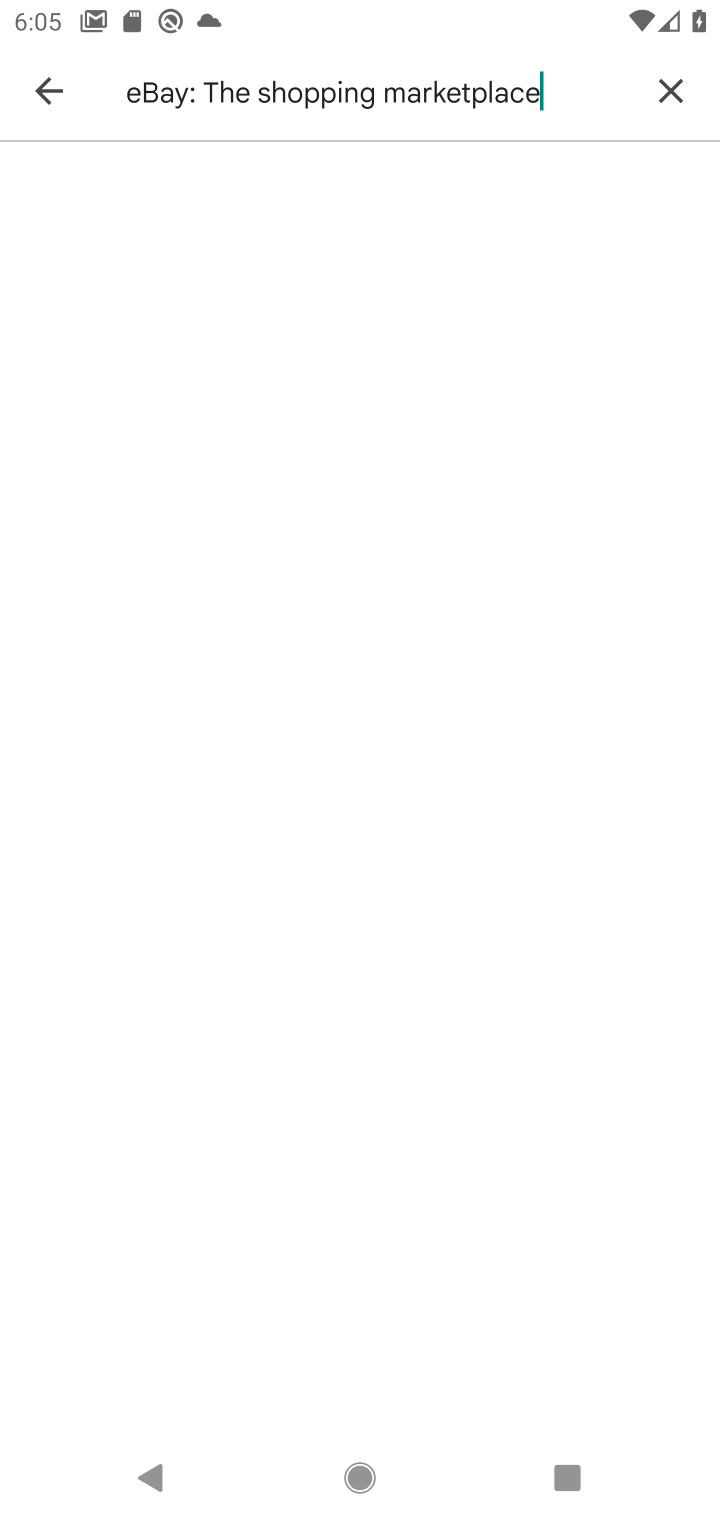
Step 31: click (367, 200)
Your task to perform on an android device: install app "eBay: The shopping marketplace" Image 32: 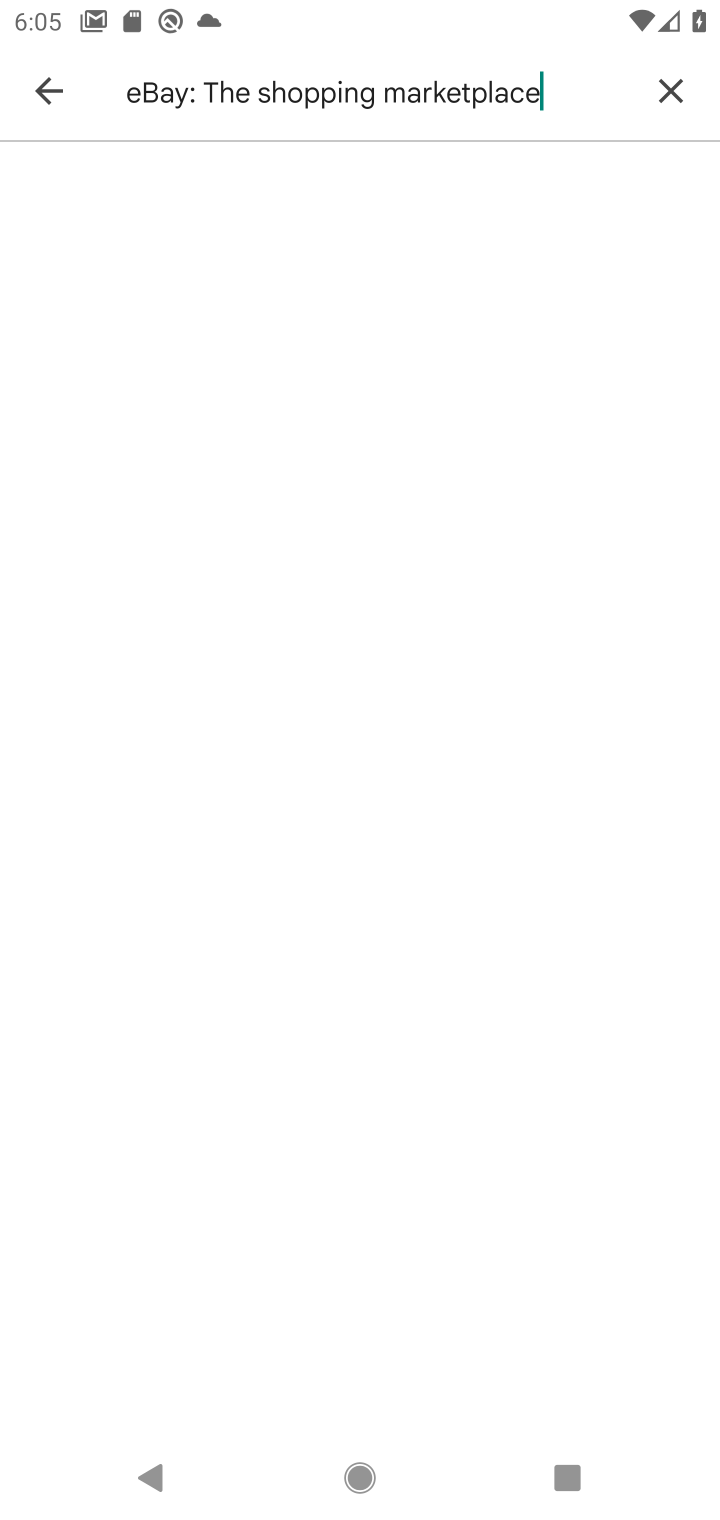
Step 32: click (404, 217)
Your task to perform on an android device: install app "eBay: The shopping marketplace" Image 33: 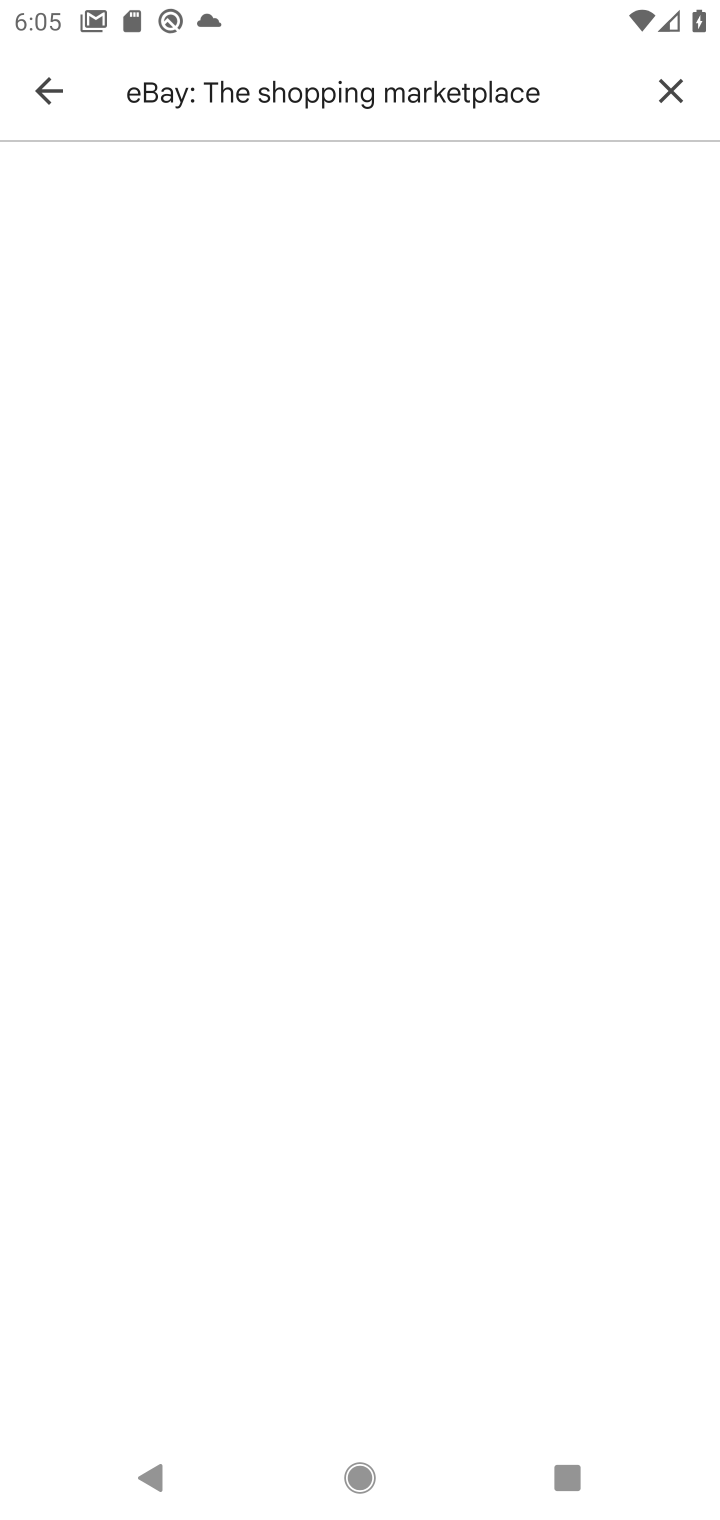
Step 33: click (453, 219)
Your task to perform on an android device: install app "eBay: The shopping marketplace" Image 34: 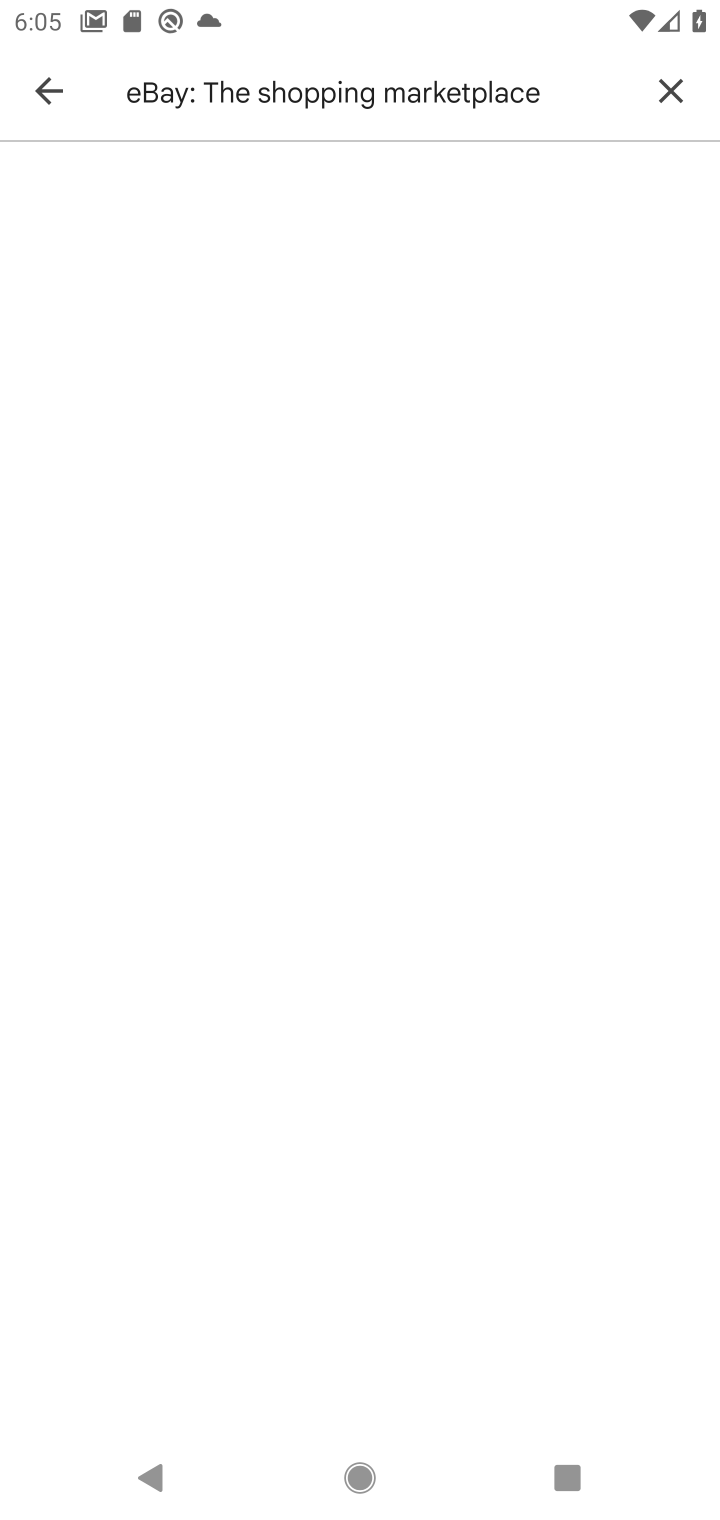
Step 34: task complete